Your task to perform on an android device: Search for the new Nike Air Jordan 33 on Nike.com Image 0: 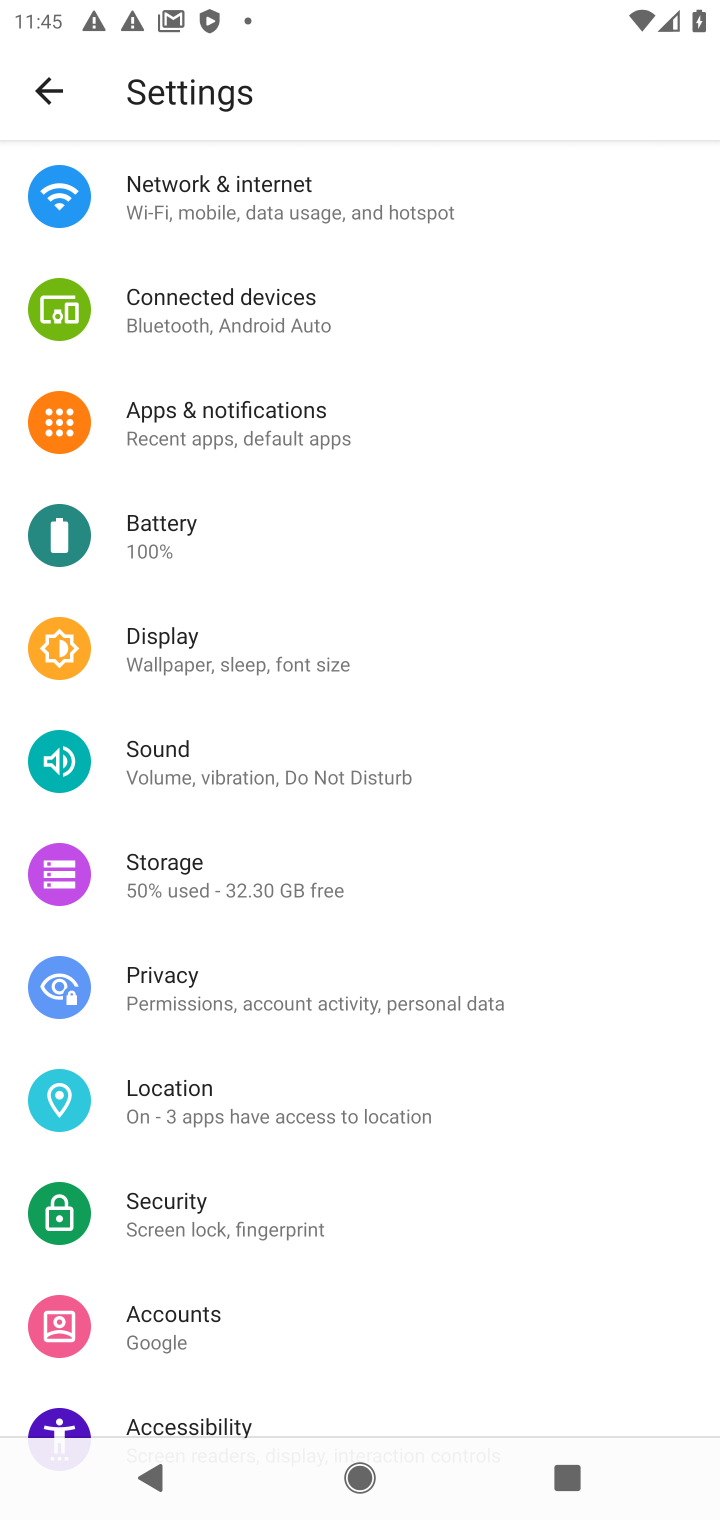
Step 0: press home button
Your task to perform on an android device: Search for the new Nike Air Jordan 33 on Nike.com Image 1: 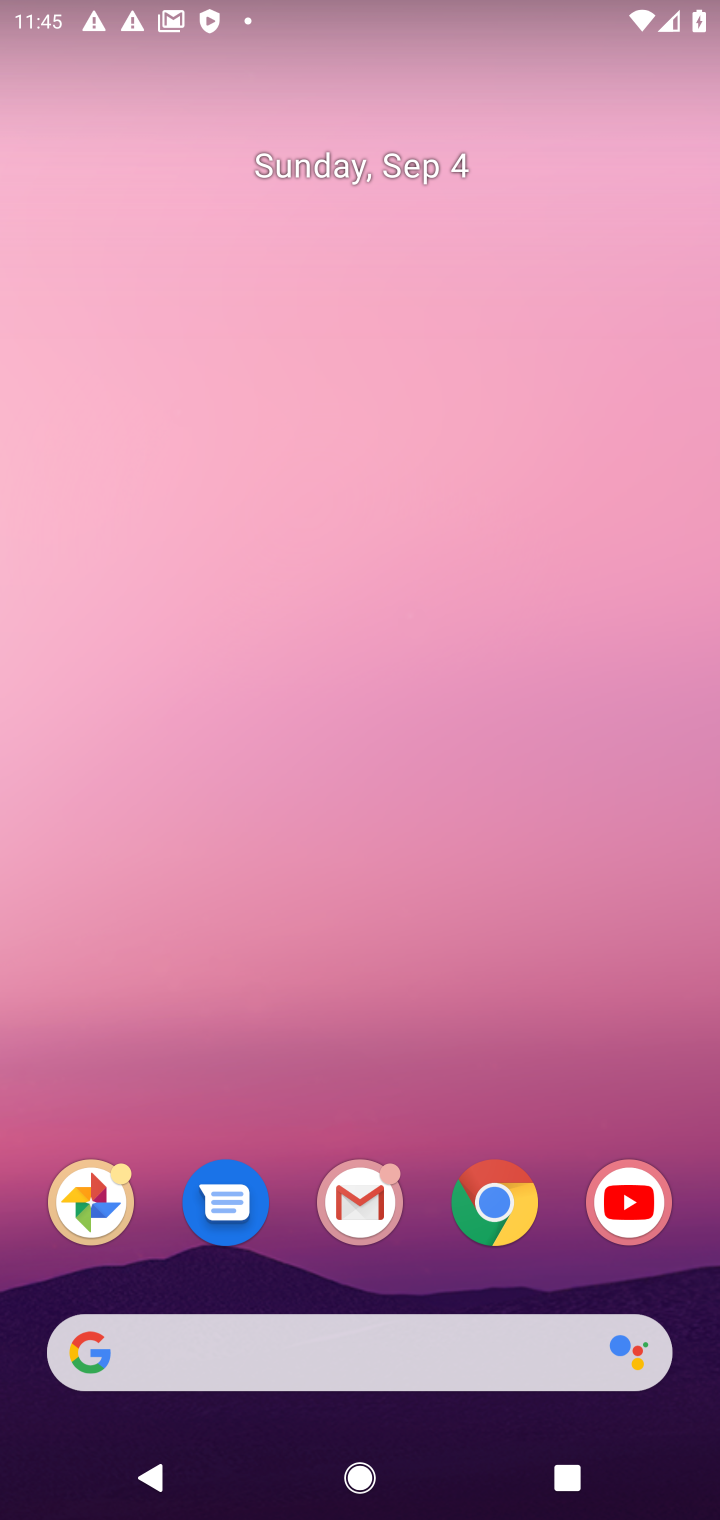
Step 1: click (491, 1208)
Your task to perform on an android device: Search for the new Nike Air Jordan 33 on Nike.com Image 2: 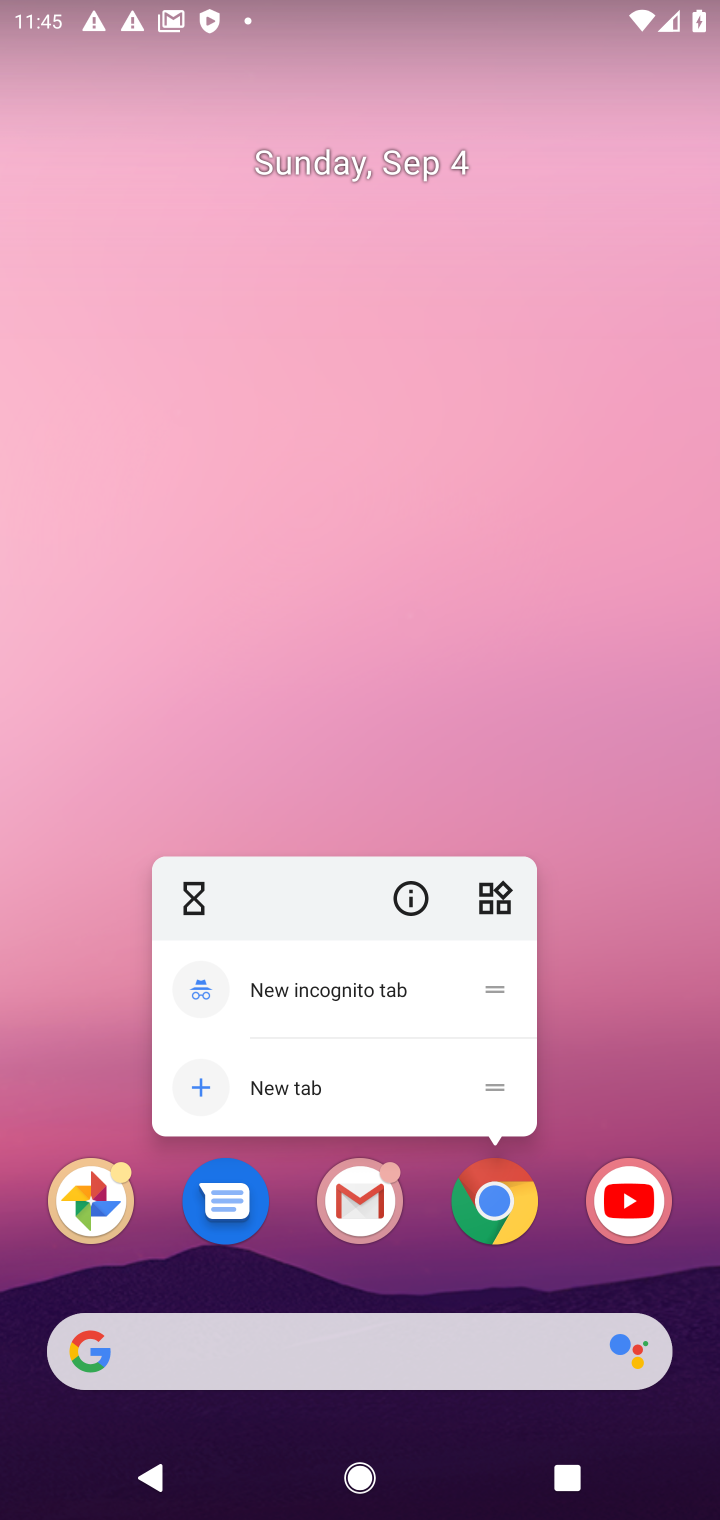
Step 2: click (484, 1195)
Your task to perform on an android device: Search for the new Nike Air Jordan 33 on Nike.com Image 3: 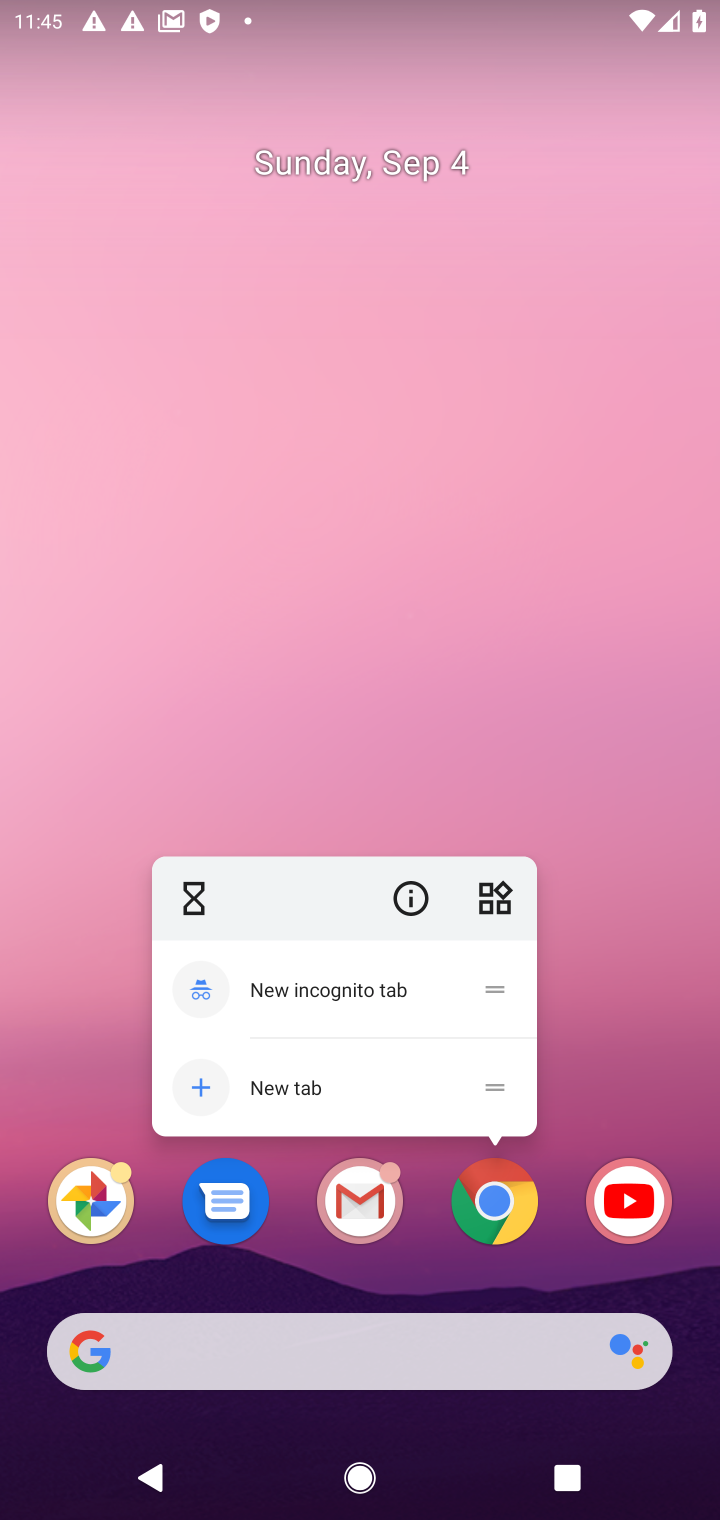
Step 3: click (521, 1233)
Your task to perform on an android device: Search for the new Nike Air Jordan 33 on Nike.com Image 4: 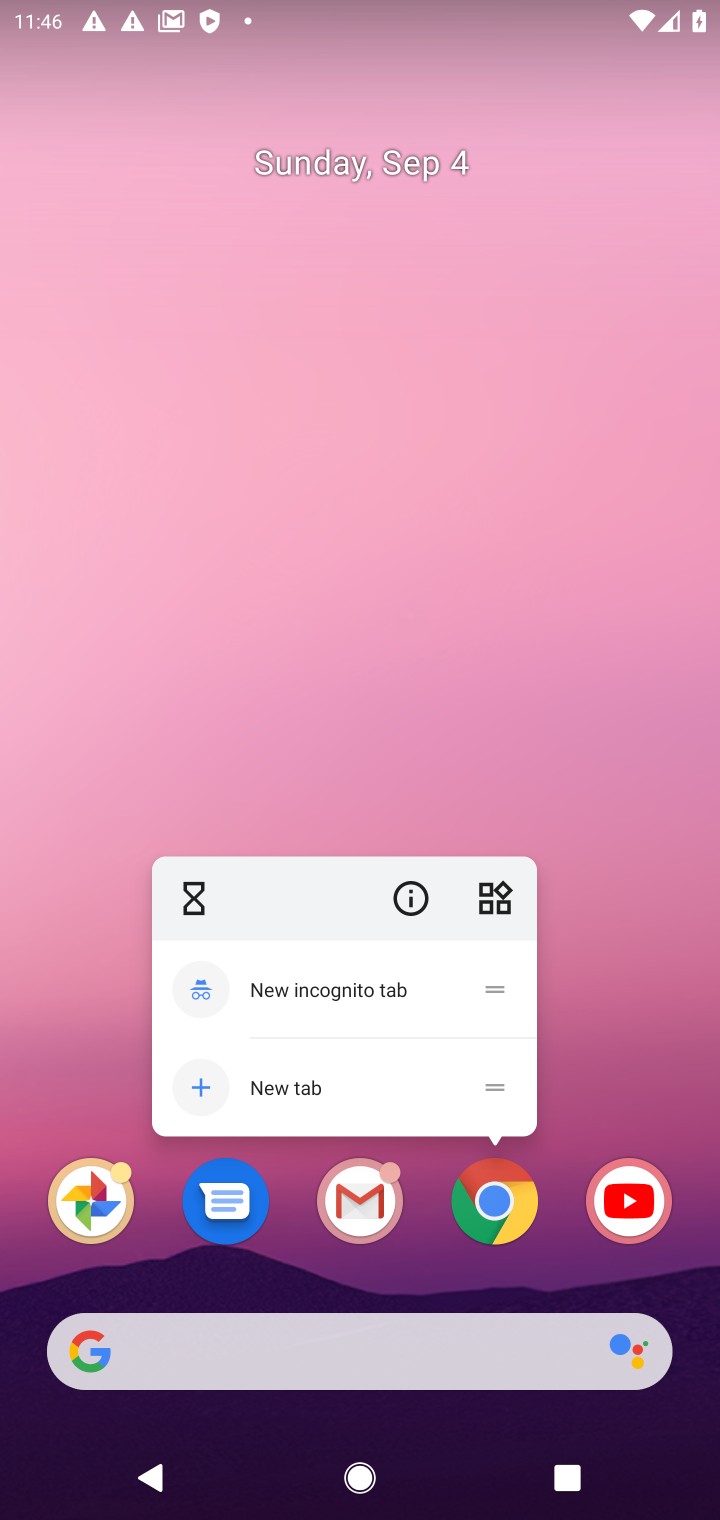
Step 4: click (477, 1199)
Your task to perform on an android device: Search for the new Nike Air Jordan 33 on Nike.com Image 5: 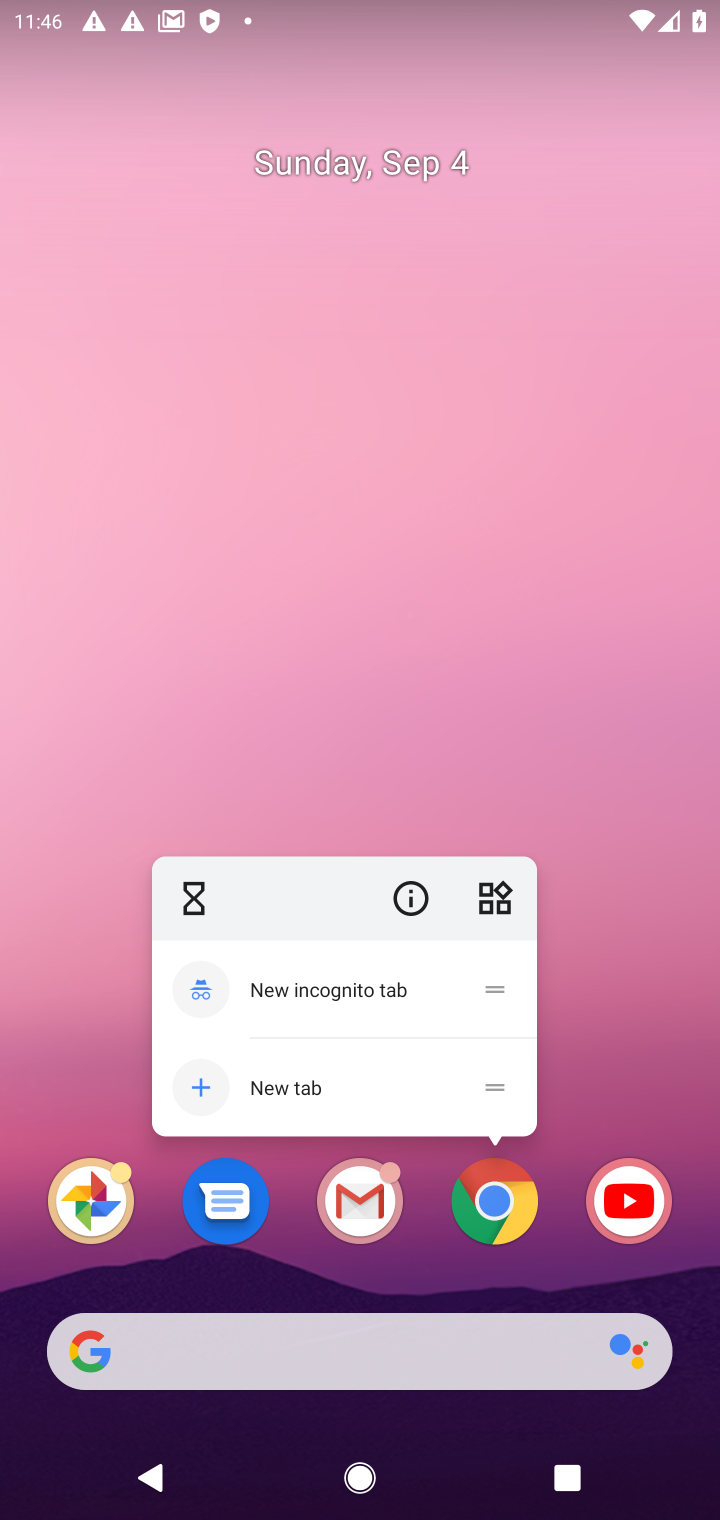
Step 5: click (480, 1211)
Your task to perform on an android device: Search for the new Nike Air Jordan 33 on Nike.com Image 6: 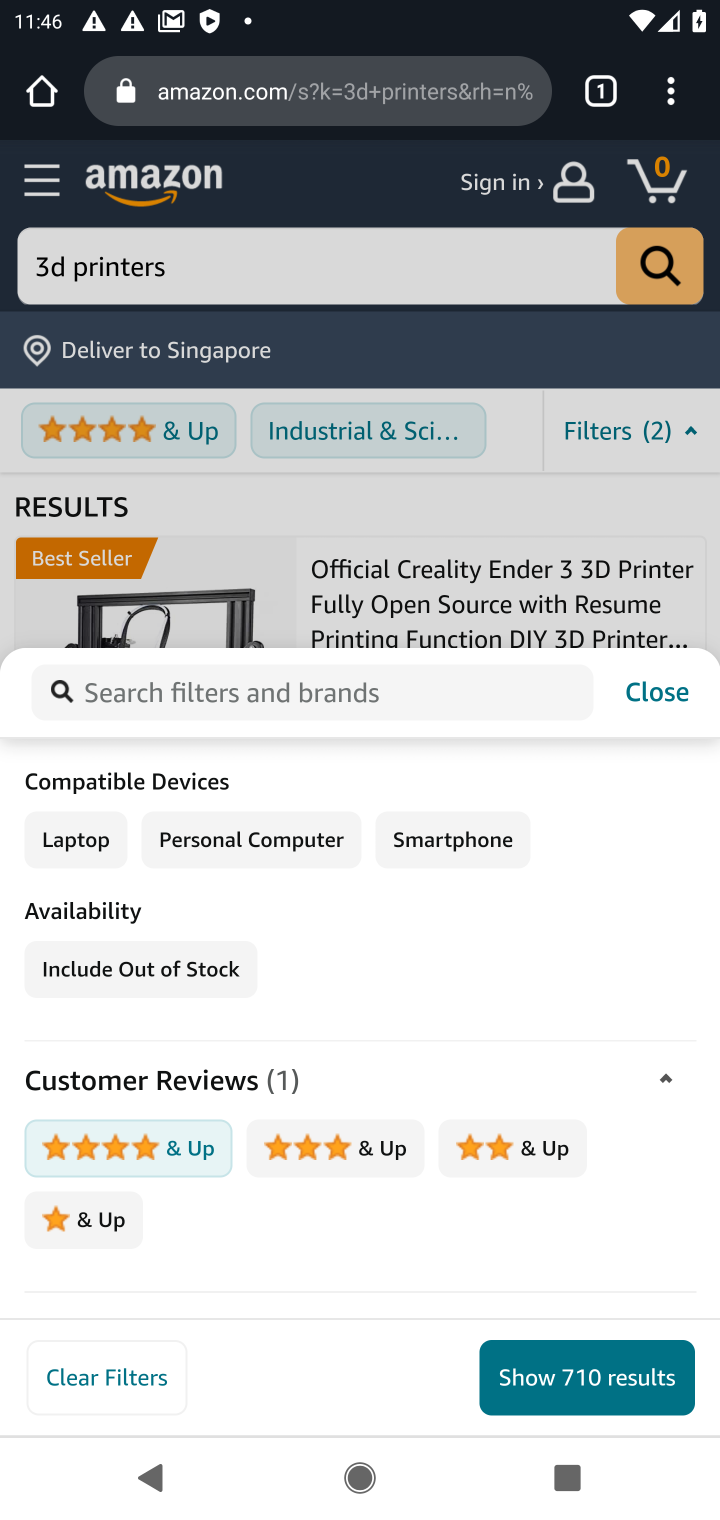
Step 6: press home button
Your task to perform on an android device: Search for the new Nike Air Jordan 33 on Nike.com Image 7: 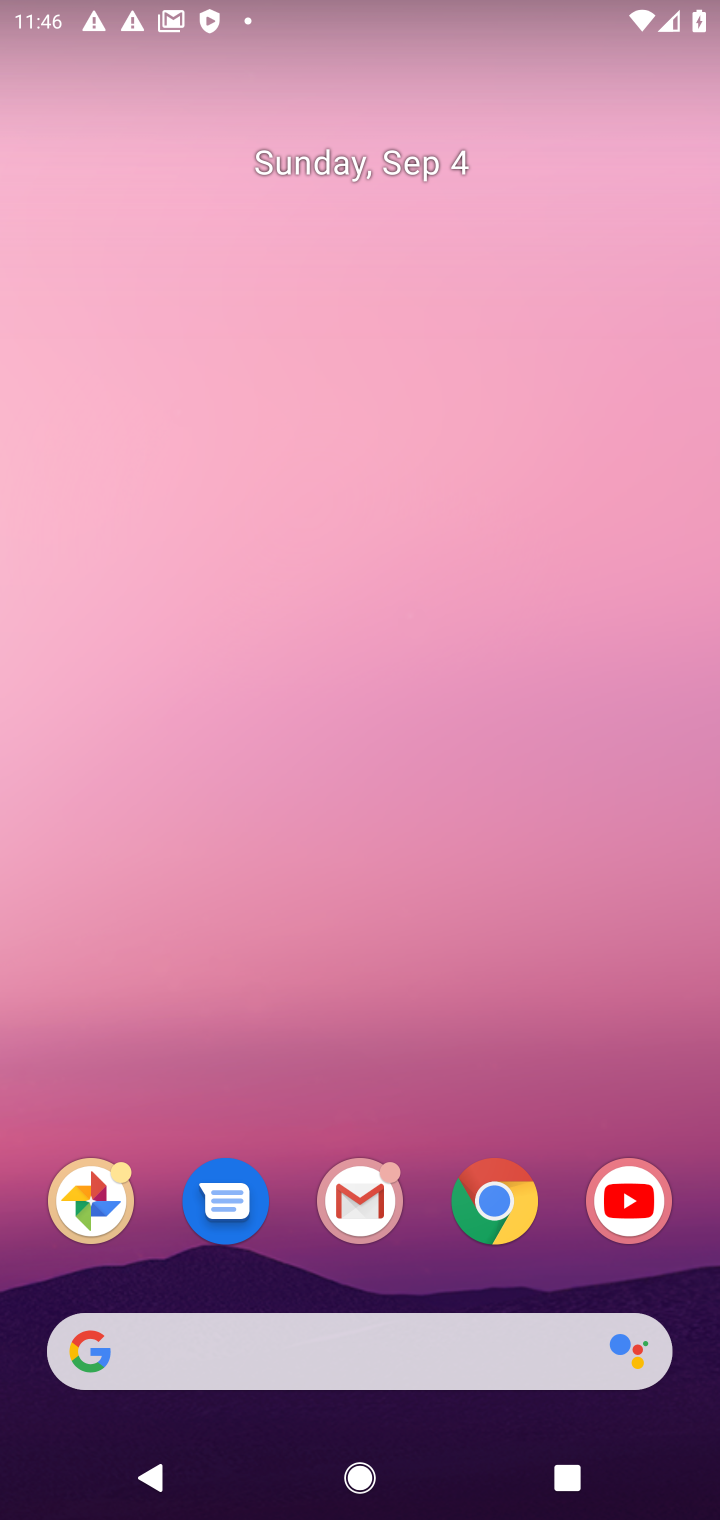
Step 7: click (463, 1207)
Your task to perform on an android device: Search for the new Nike Air Jordan 33 on Nike.com Image 8: 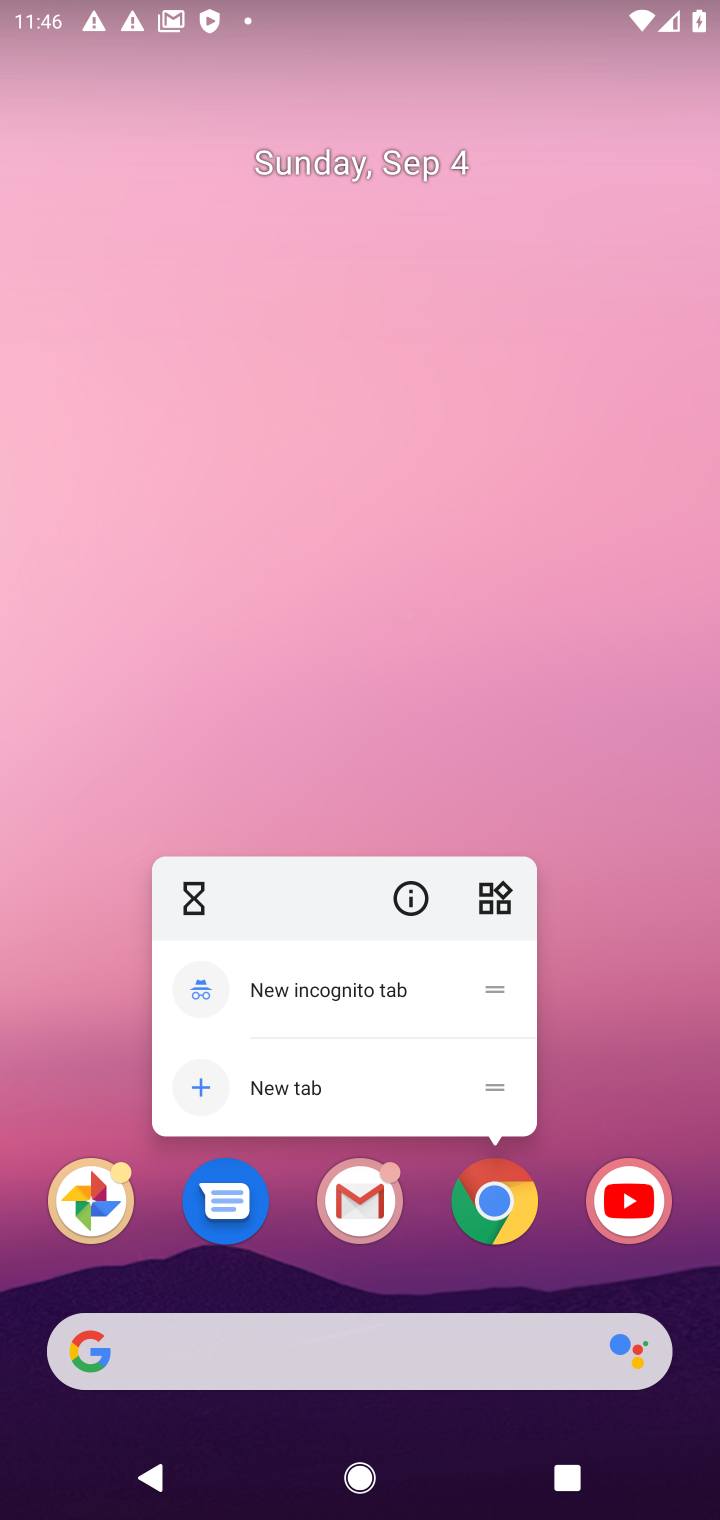
Step 8: click (498, 1203)
Your task to perform on an android device: Search for the new Nike Air Jordan 33 on Nike.com Image 9: 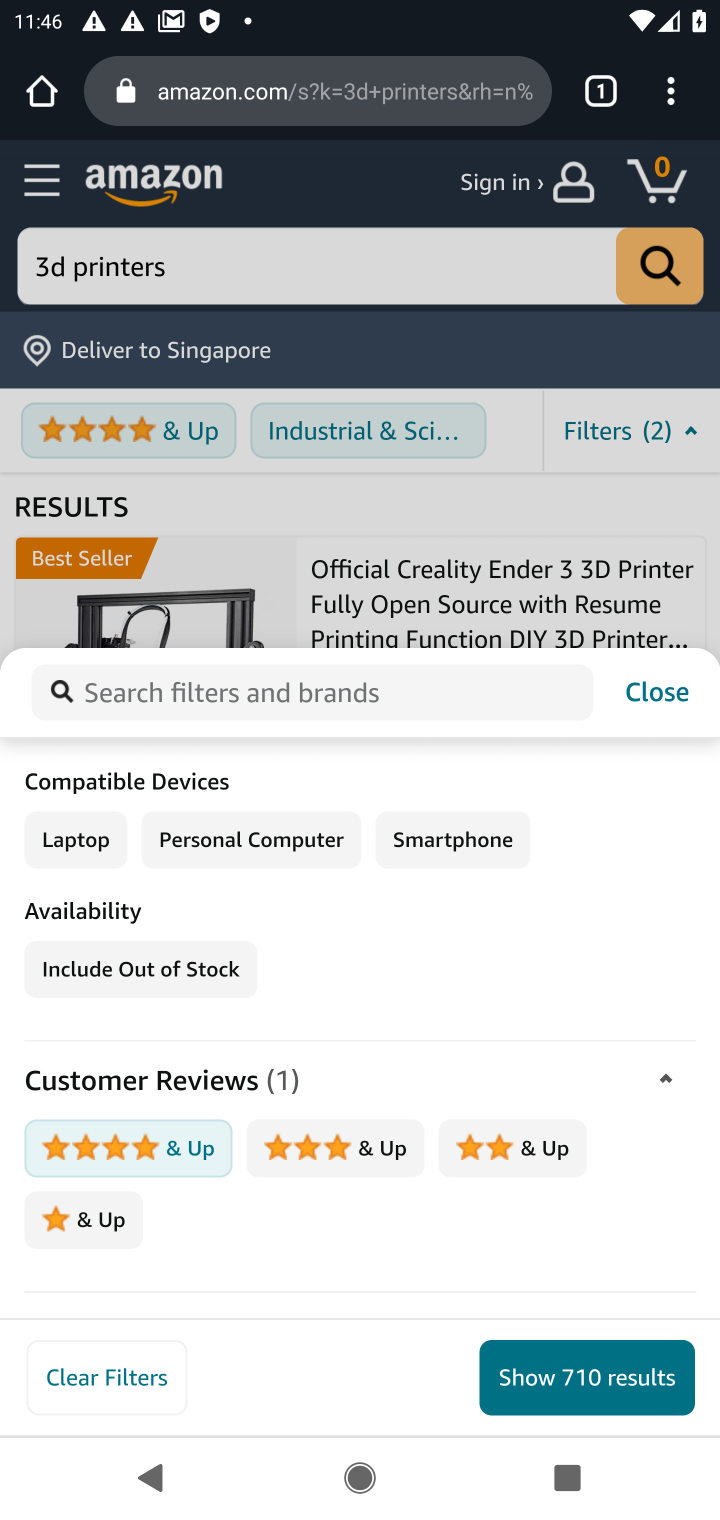
Step 9: click (222, 105)
Your task to perform on an android device: Search for the new Nike Air Jordan 33 on Nike.com Image 10: 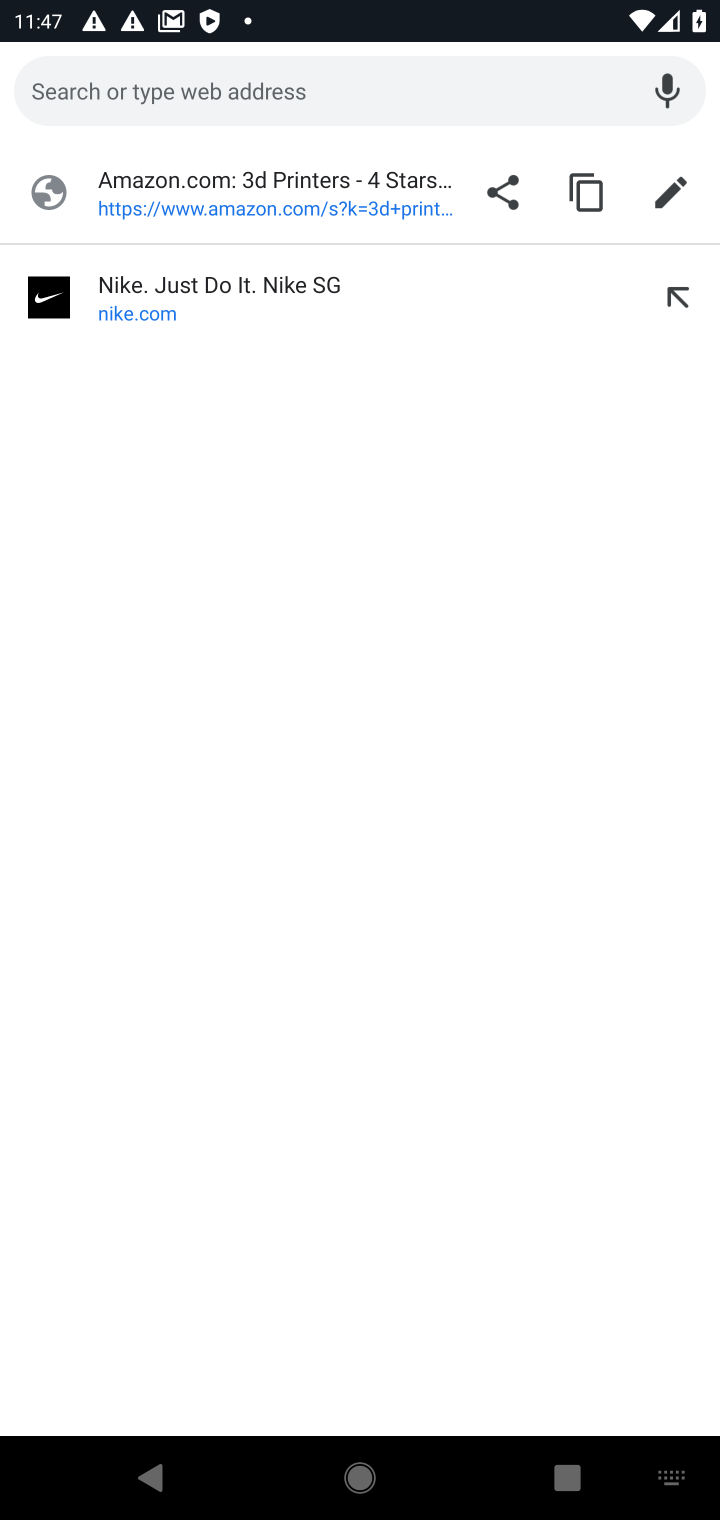
Step 10: type "nike.com"
Your task to perform on an android device: Search for the new Nike Air Jordan 33 on Nike.com Image 11: 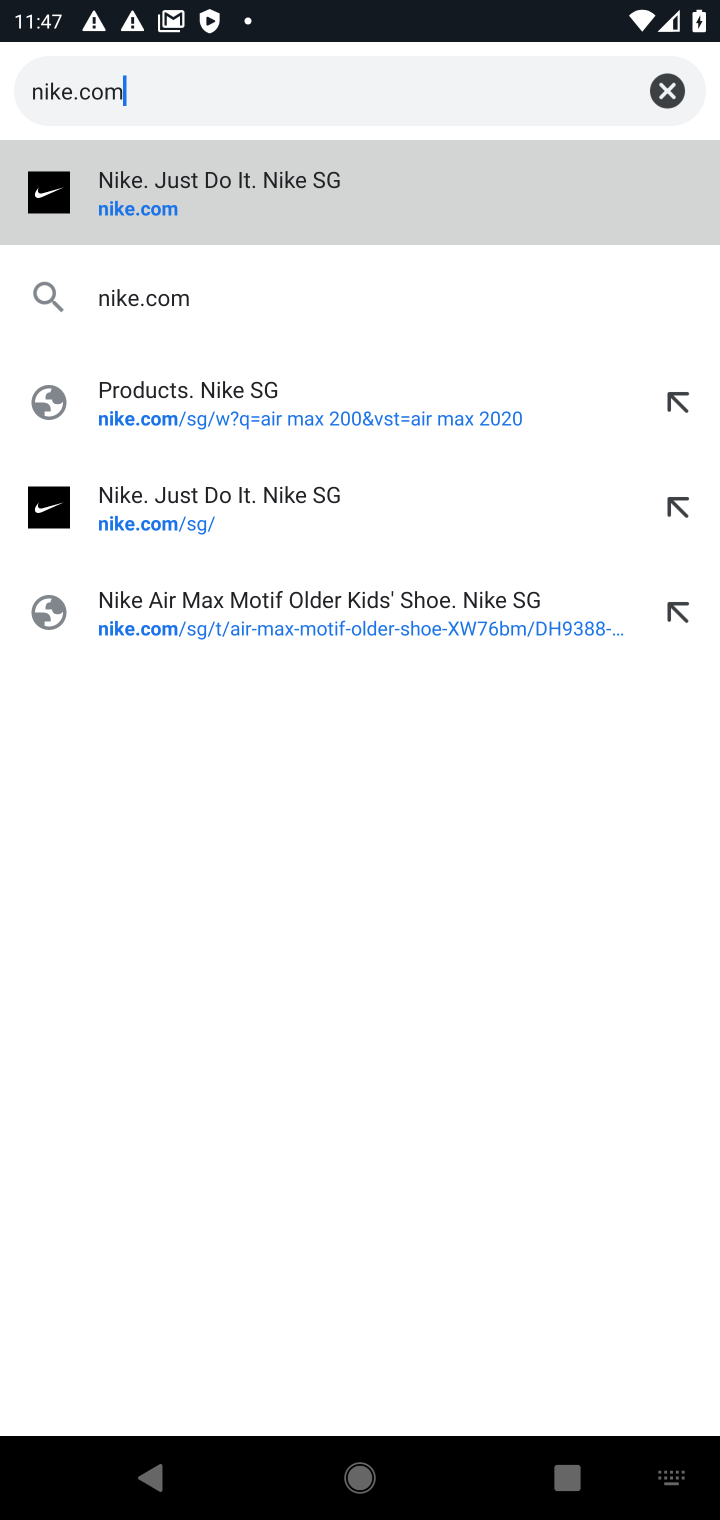
Step 11: click (152, 225)
Your task to perform on an android device: Search for the new Nike Air Jordan 33 on Nike.com Image 12: 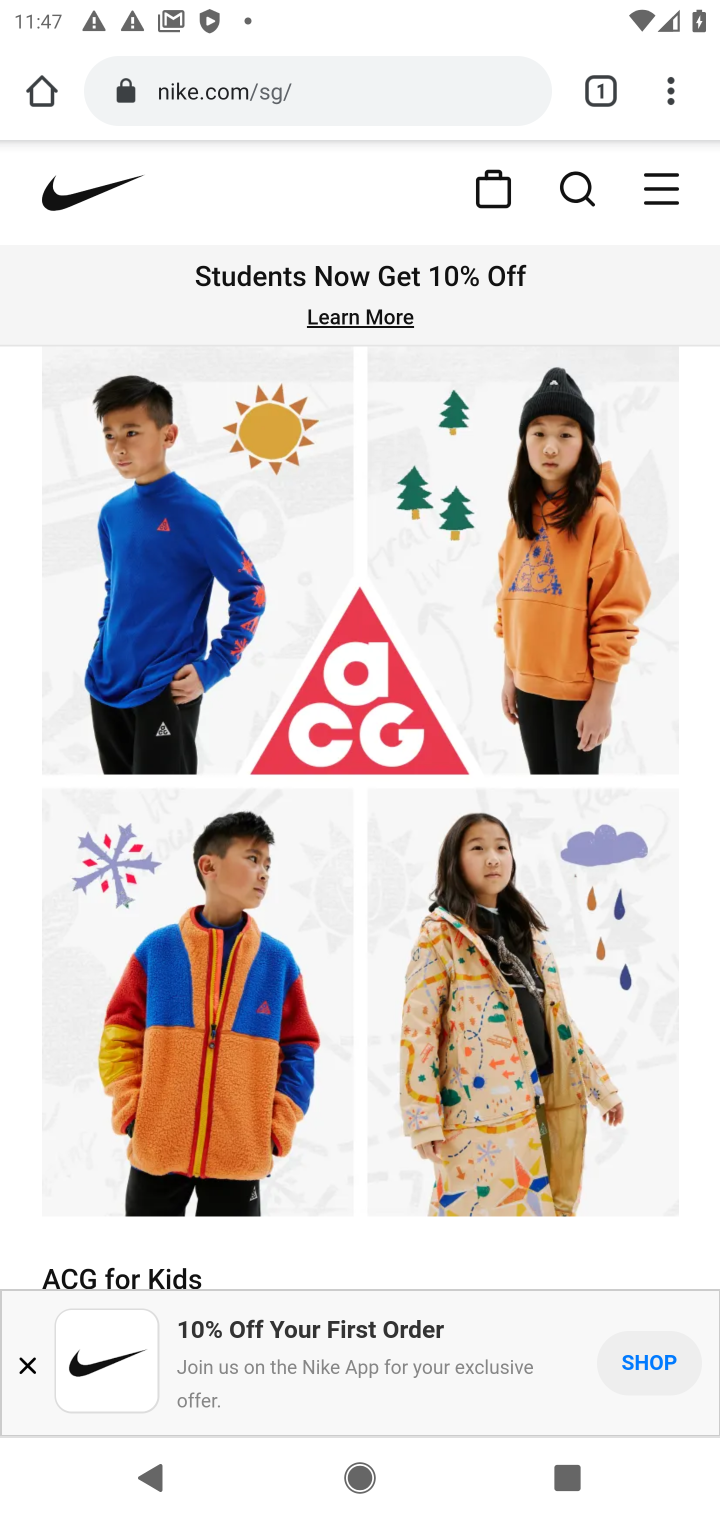
Step 12: click (562, 187)
Your task to perform on an android device: Search for the new Nike Air Jordan 33 on Nike.com Image 13: 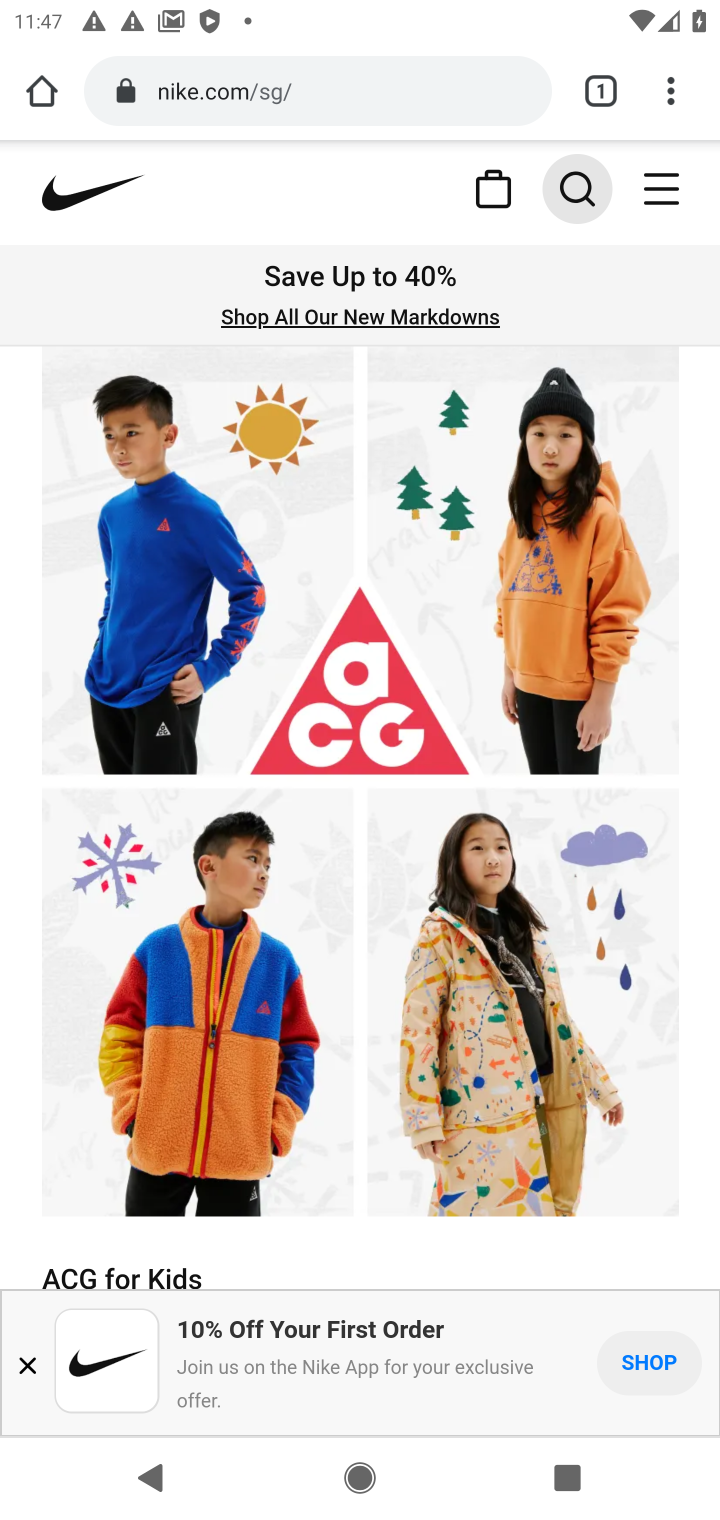
Step 13: click (568, 198)
Your task to perform on an android device: Search for the new Nike Air Jordan 33 on Nike.com Image 14: 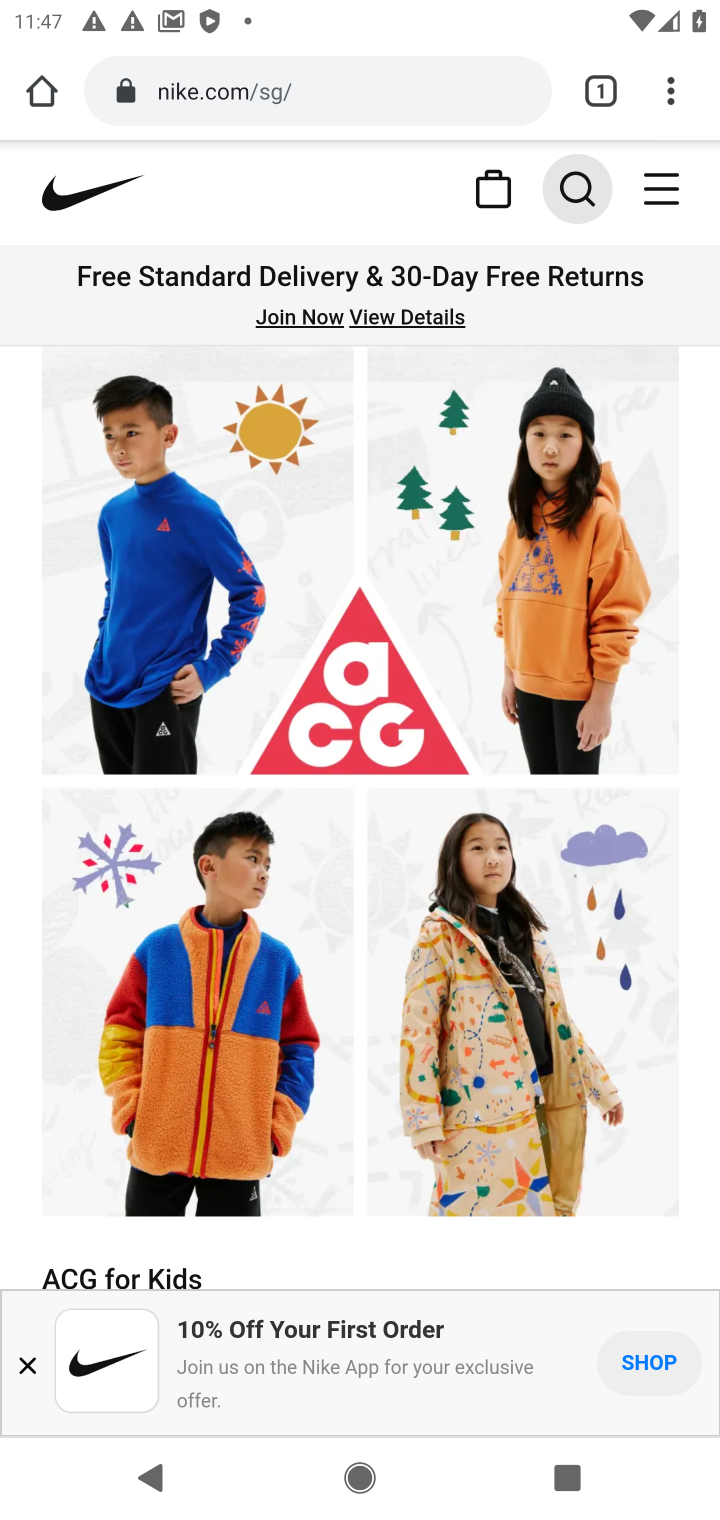
Step 14: click (25, 1367)
Your task to perform on an android device: Search for the new Nike Air Jordan 33 on Nike.com Image 15: 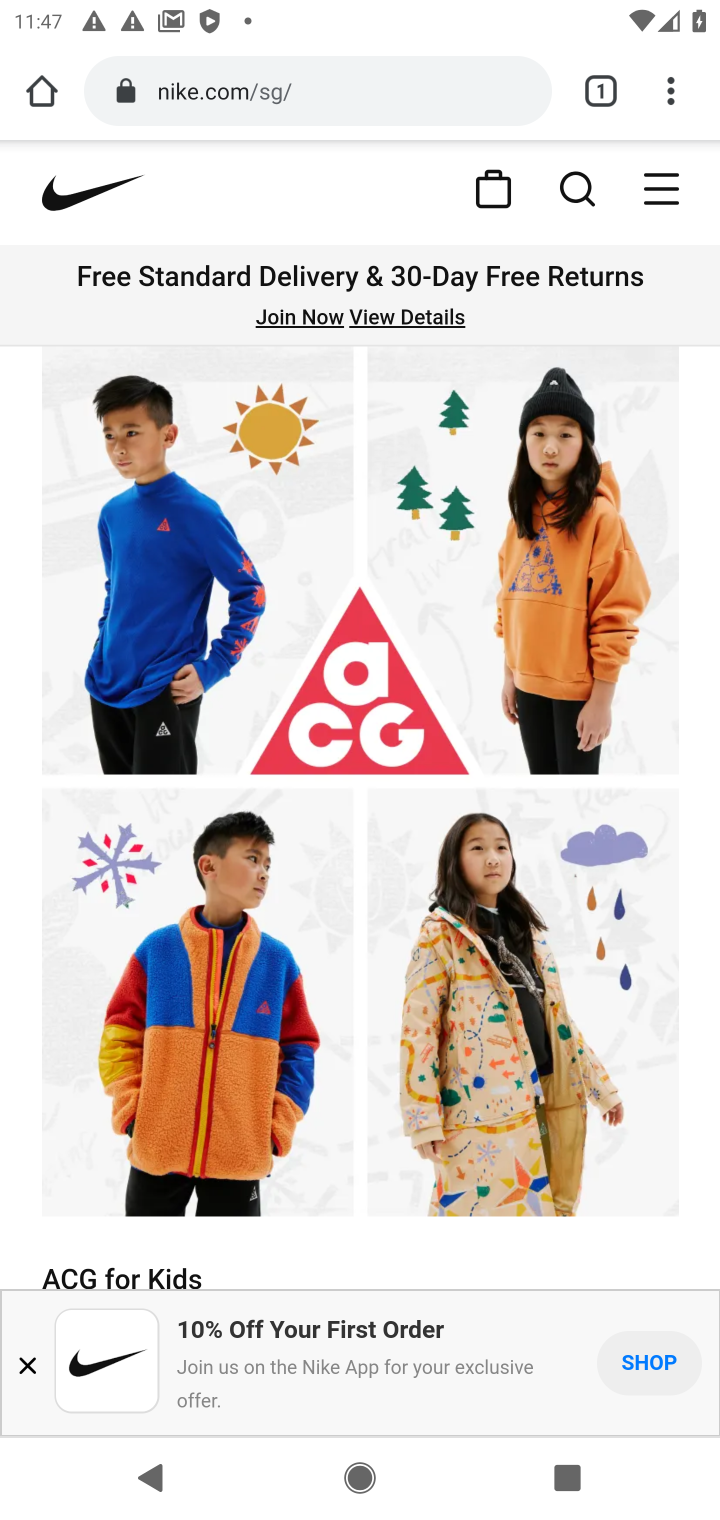
Step 15: click (25, 1373)
Your task to perform on an android device: Search for the new Nike Air Jordan 33 on Nike.com Image 16: 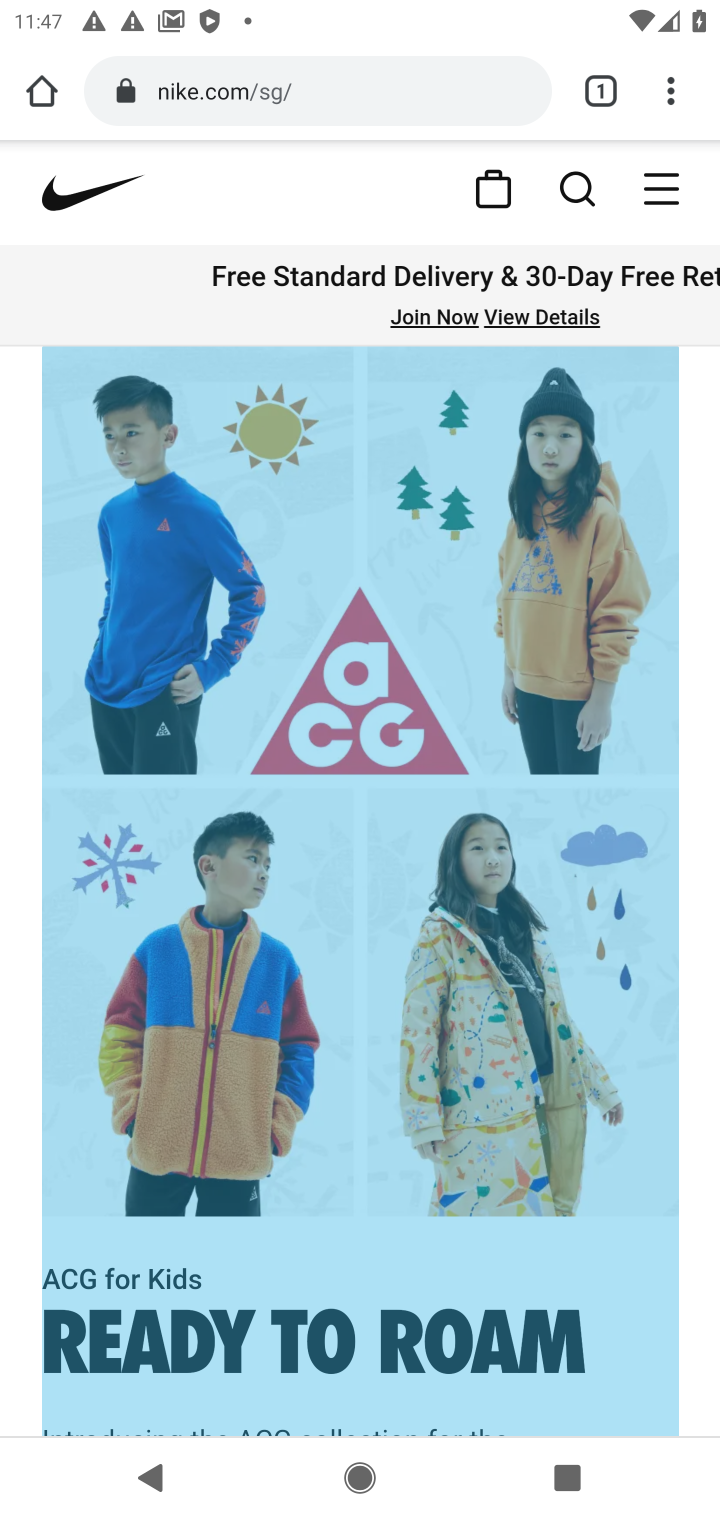
Step 16: click (561, 185)
Your task to perform on an android device: Search for the new Nike Air Jordan 33 on Nike.com Image 17: 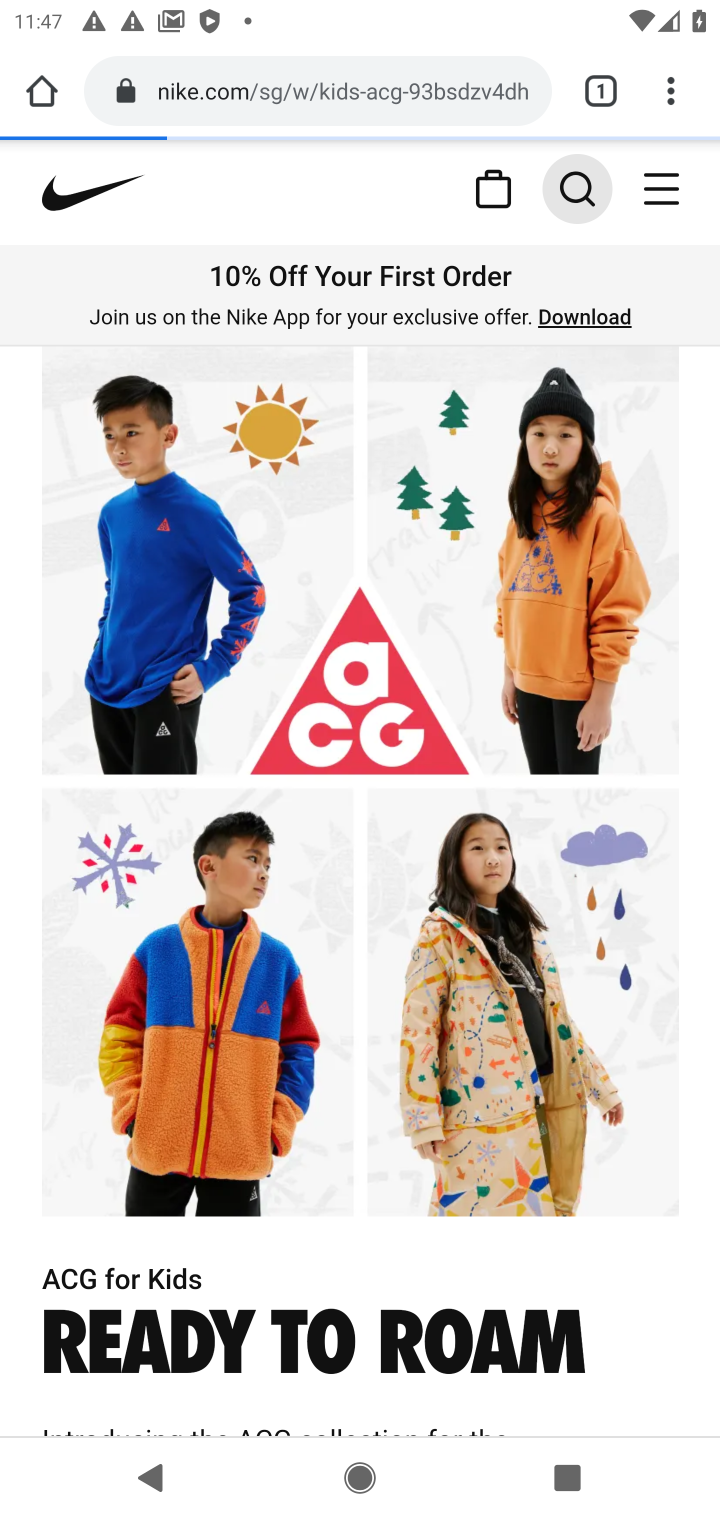
Step 17: click (577, 181)
Your task to perform on an android device: Search for the new Nike Air Jordan 33 on Nike.com Image 18: 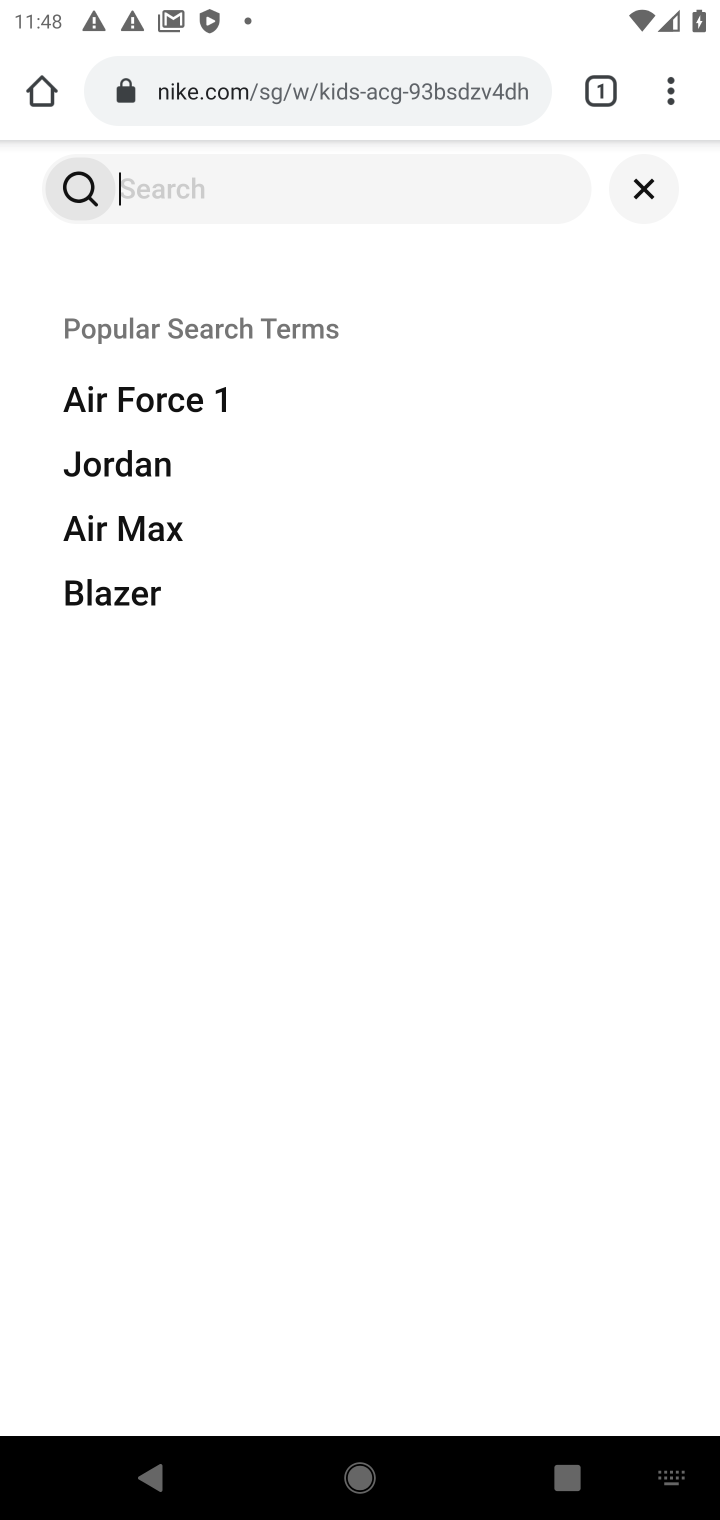
Step 18: type "nike air jordan 33"
Your task to perform on an android device: Search for the new Nike Air Jordan 33 on Nike.com Image 19: 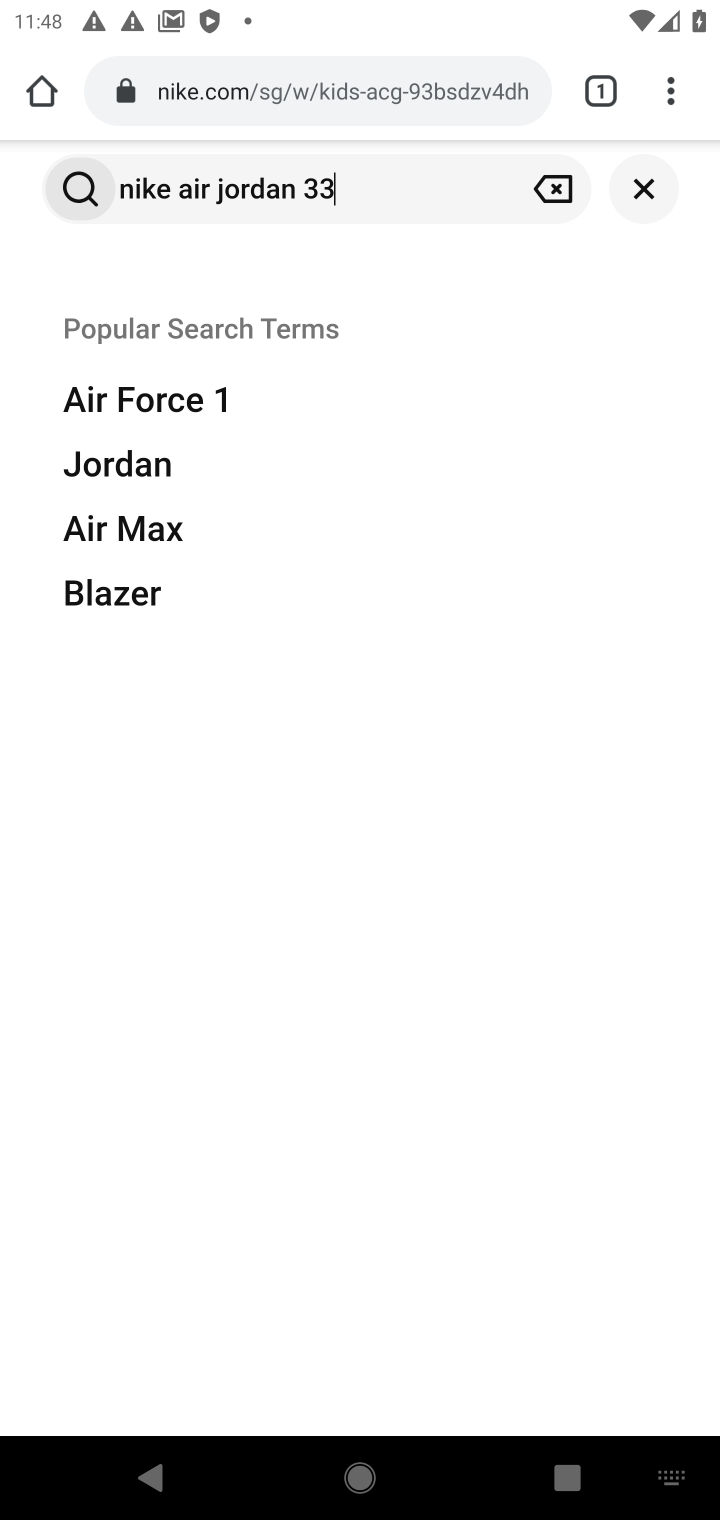
Step 19: type ""
Your task to perform on an android device: Search for the new Nike Air Jordan 33 on Nike.com Image 20: 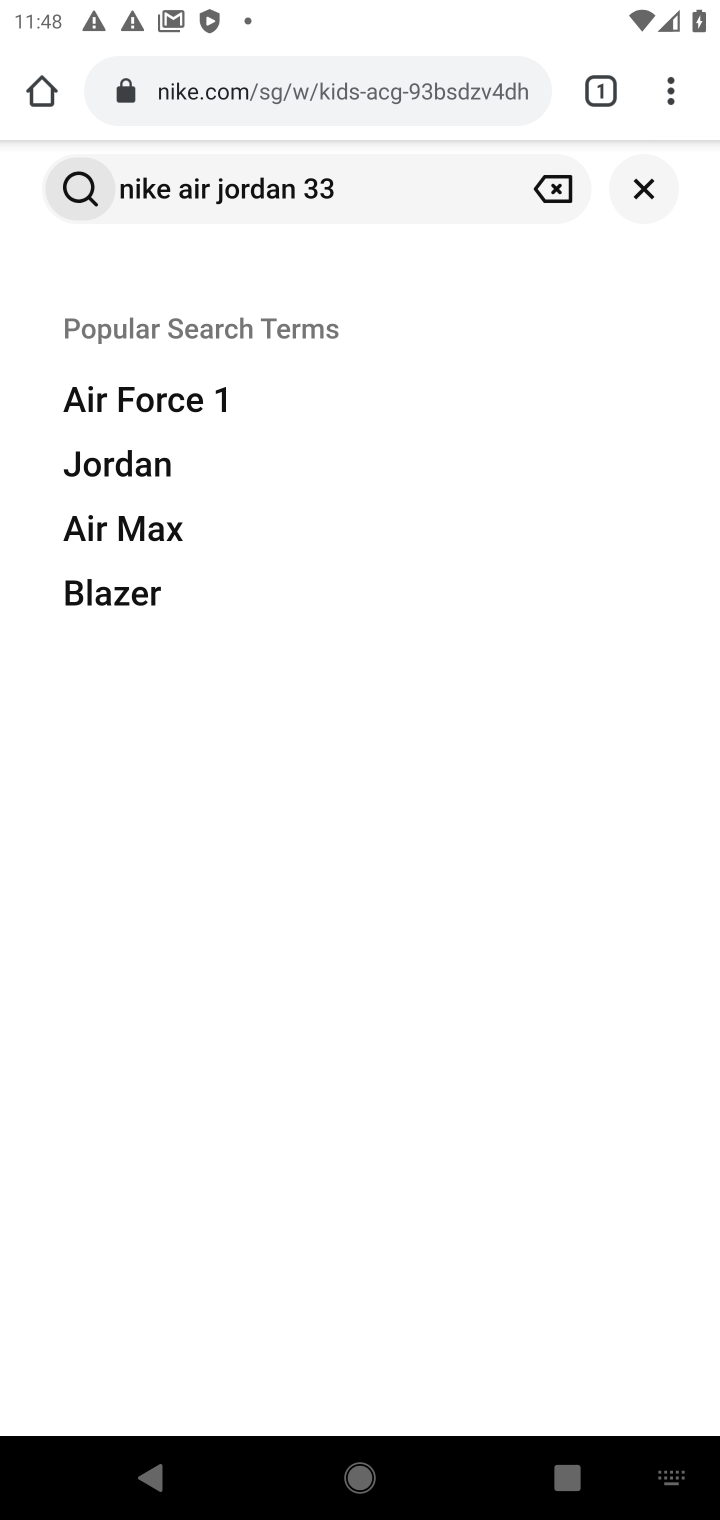
Step 20: type ""
Your task to perform on an android device: Search for the new Nike Air Jordan 33 on Nike.com Image 21: 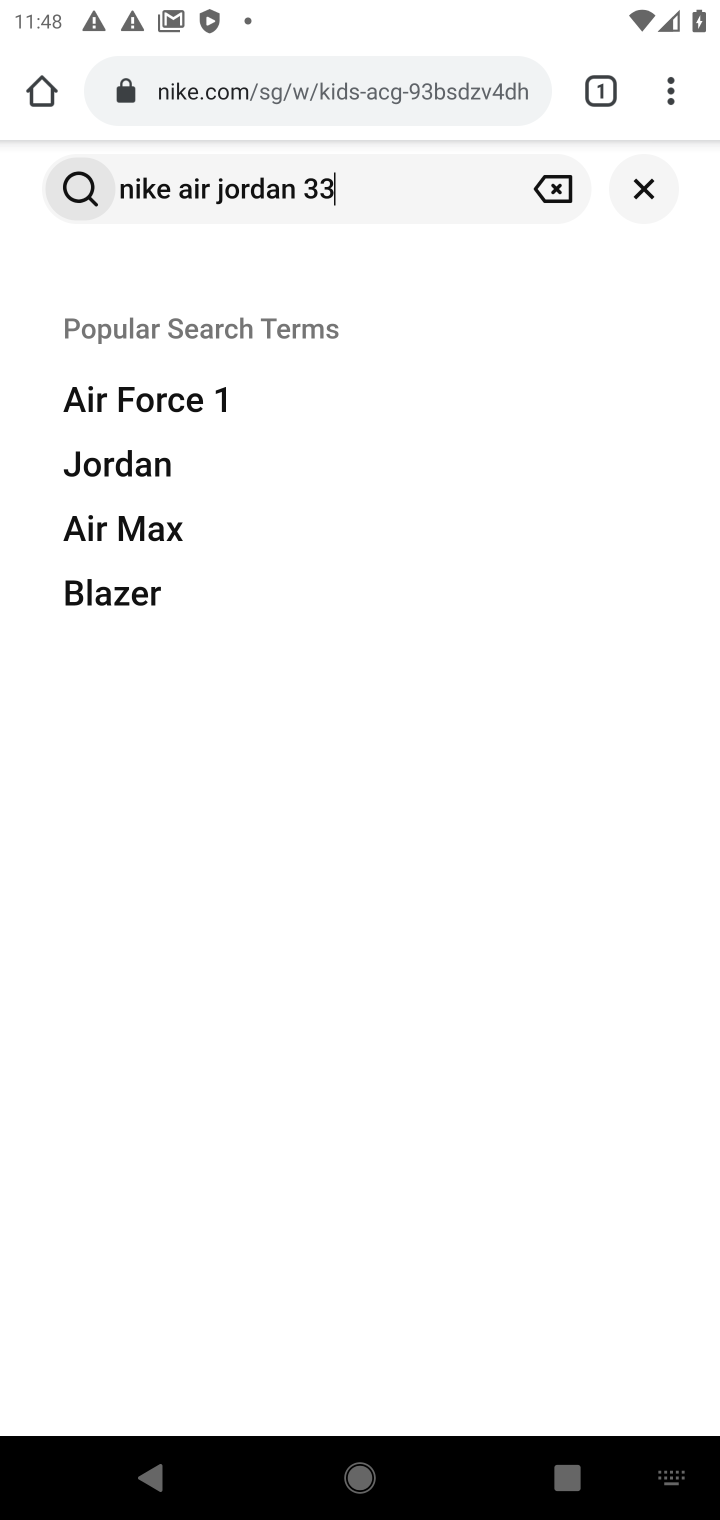
Step 21: click (110, 449)
Your task to perform on an android device: Search for the new Nike Air Jordan 33 on Nike.com Image 22: 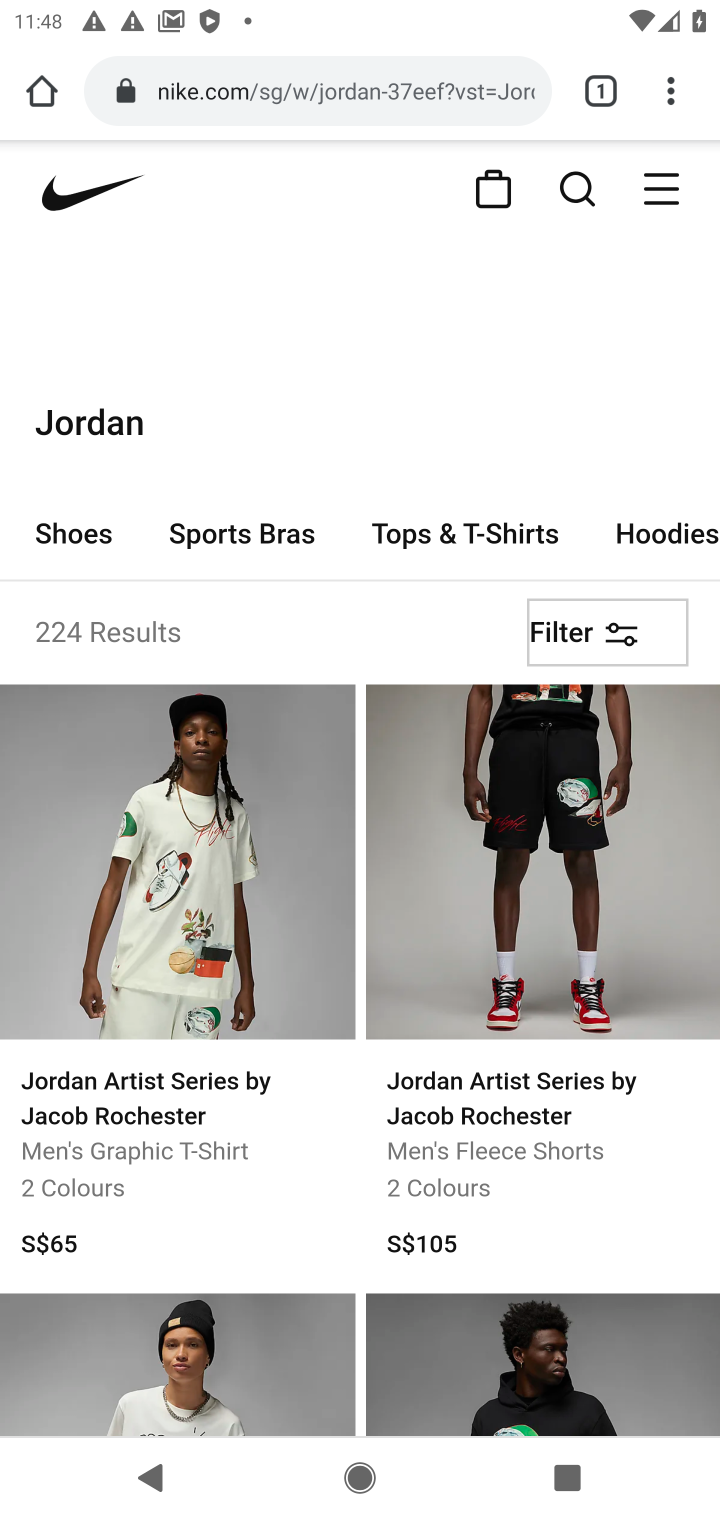
Step 22: drag from (297, 1122) to (368, 732)
Your task to perform on an android device: Search for the new Nike Air Jordan 33 on Nike.com Image 23: 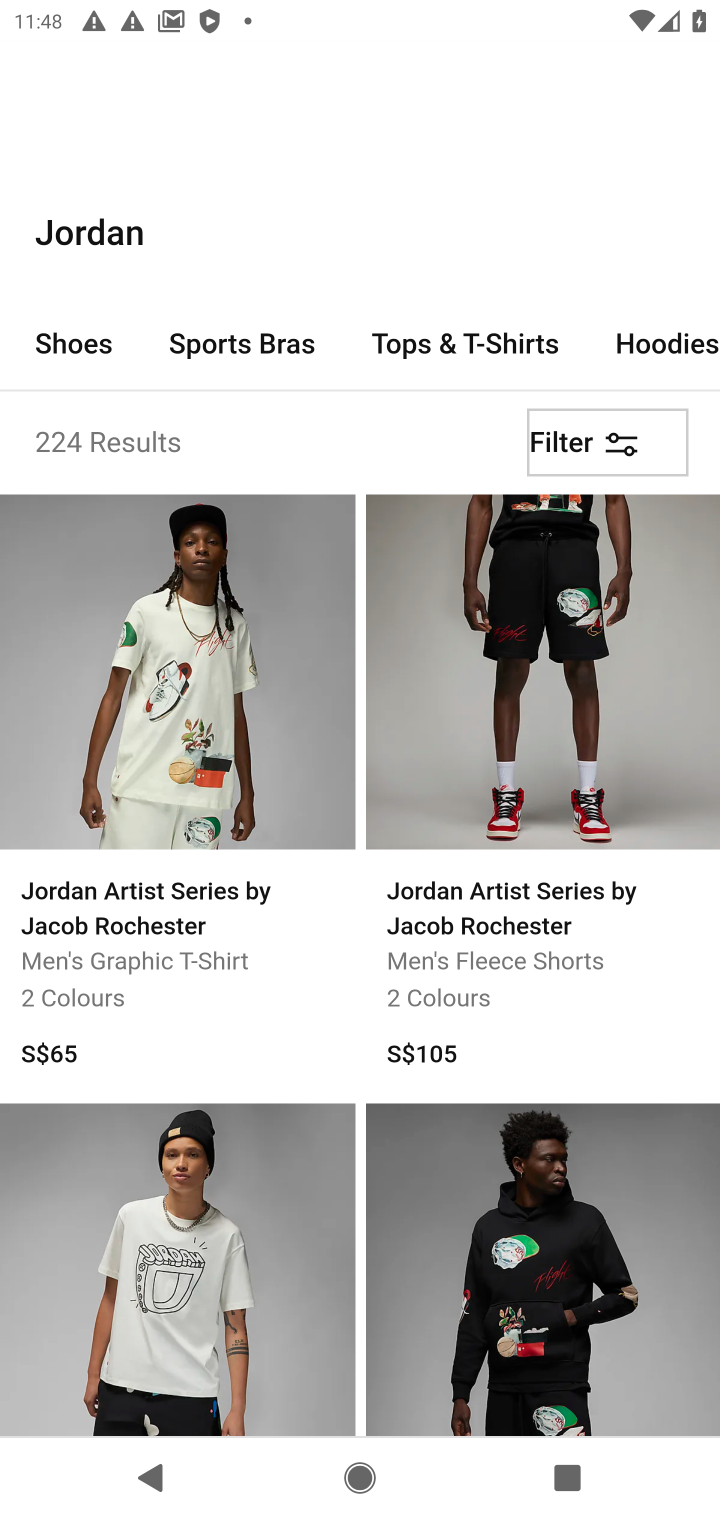
Step 23: click (587, 1252)
Your task to perform on an android device: Search for the new Nike Air Jordan 33 on Nike.com Image 24: 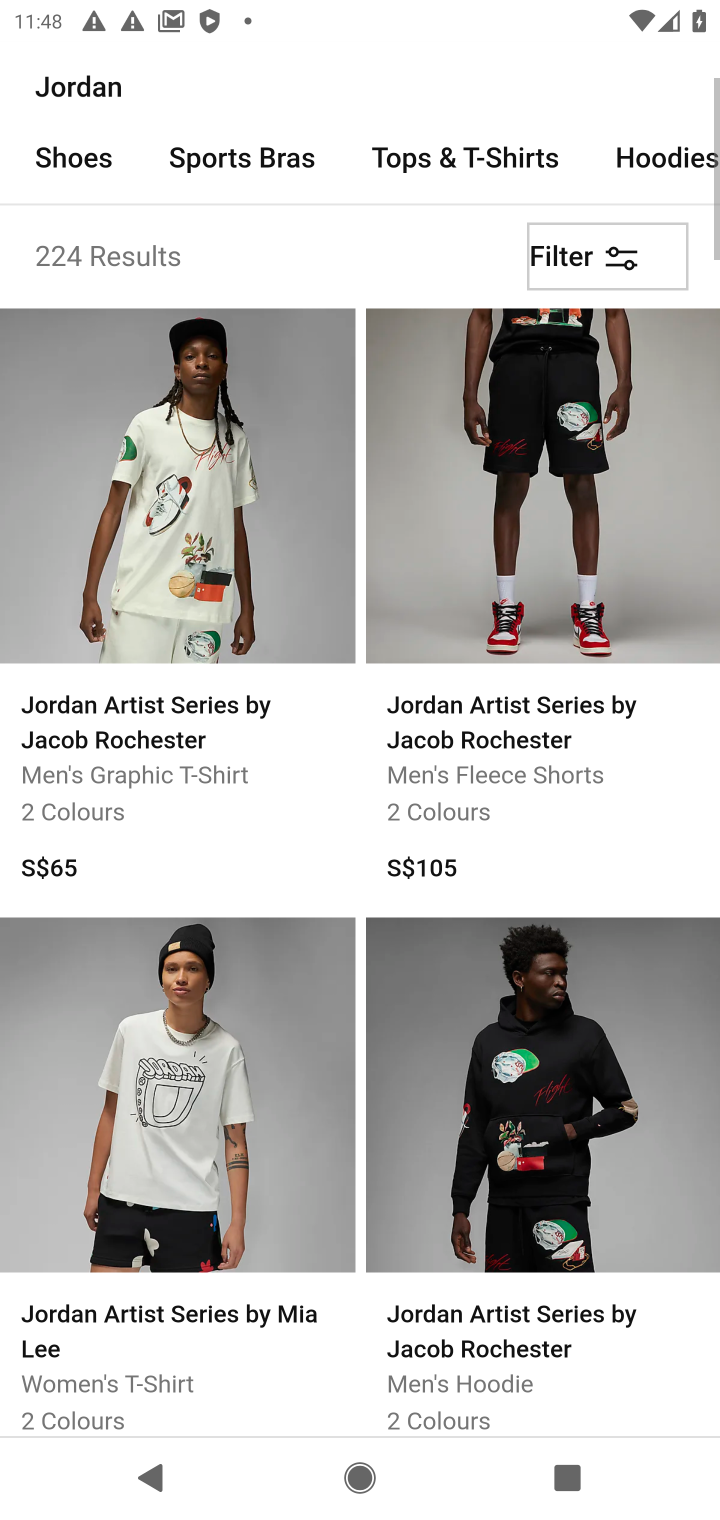
Step 24: click (571, 244)
Your task to perform on an android device: Search for the new Nike Air Jordan 33 on Nike.com Image 25: 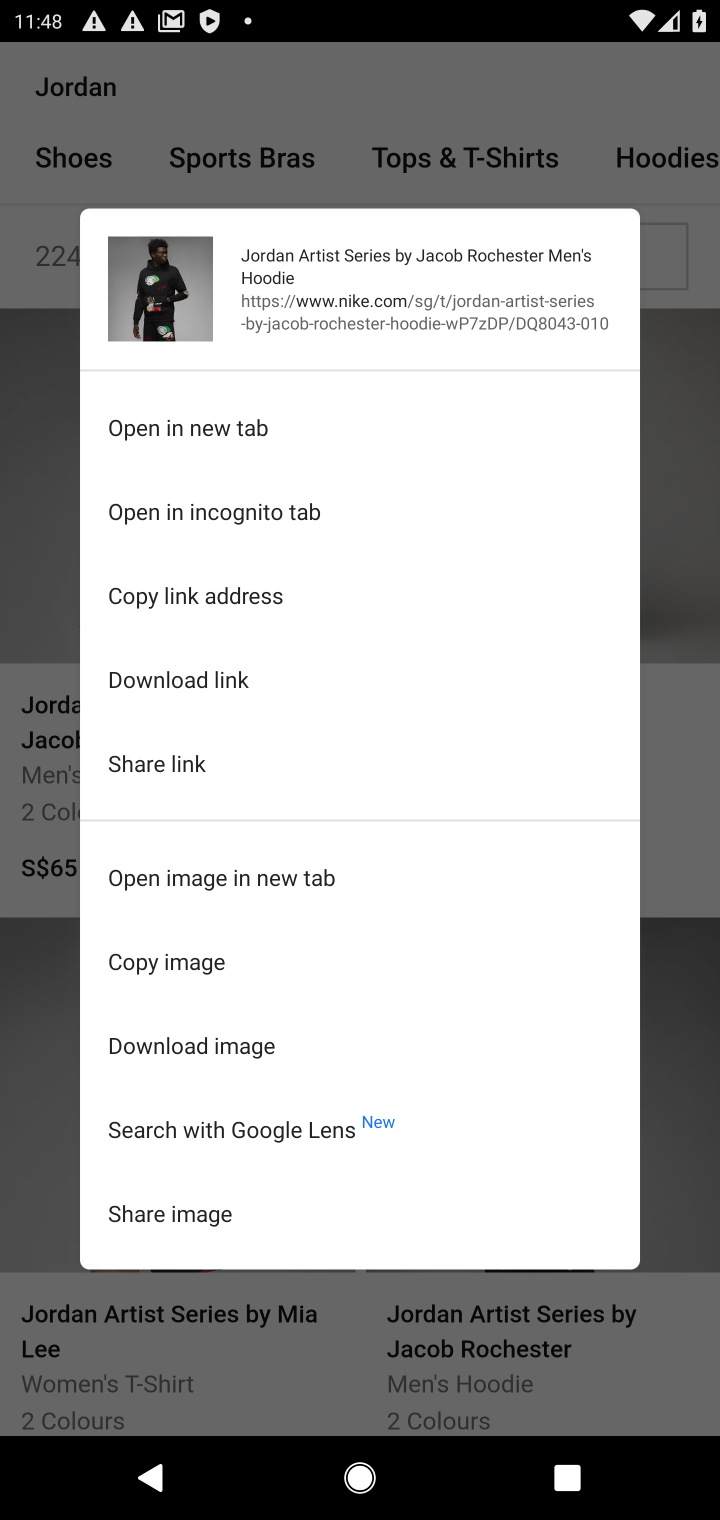
Step 25: drag from (445, 866) to (246, 627)
Your task to perform on an android device: Search for the new Nike Air Jordan 33 on Nike.com Image 26: 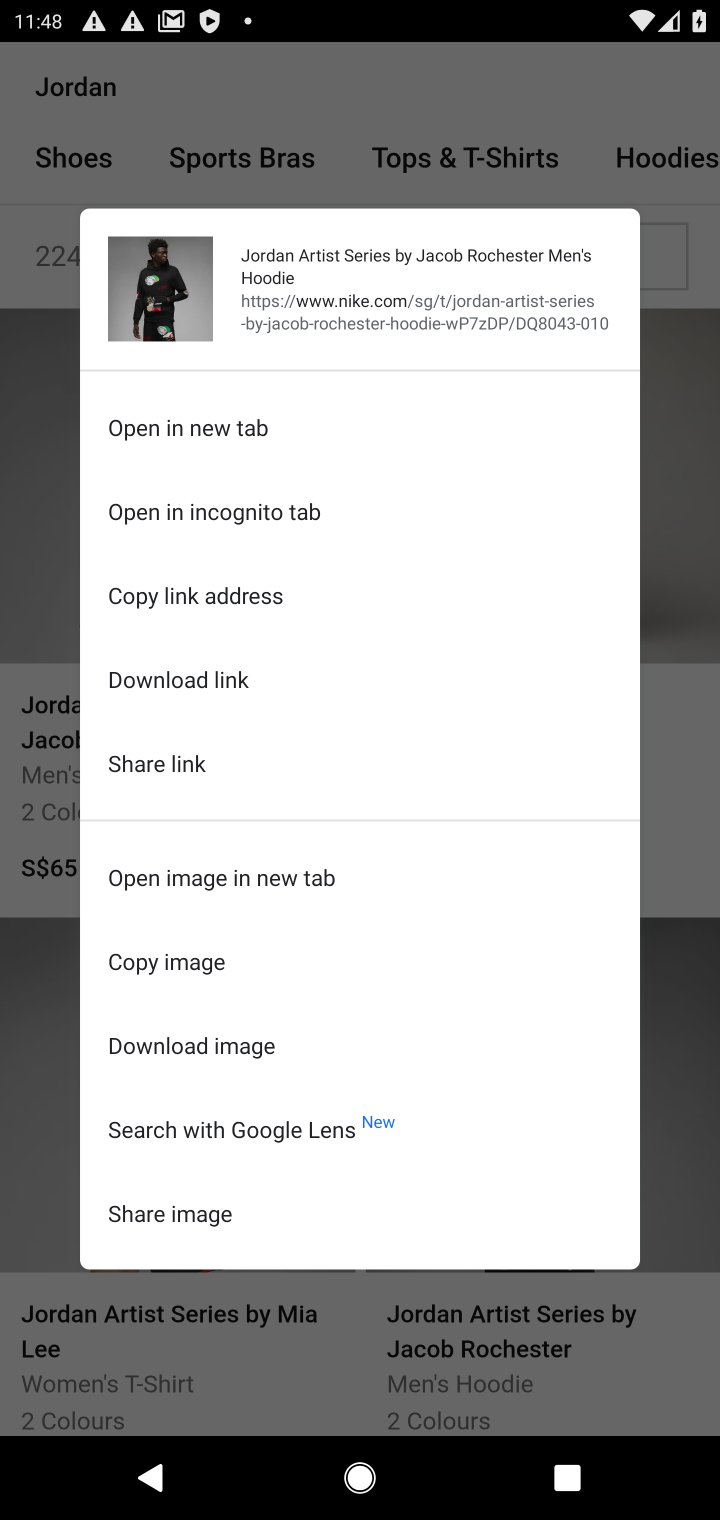
Step 26: drag from (693, 900) to (714, 309)
Your task to perform on an android device: Search for the new Nike Air Jordan 33 on Nike.com Image 27: 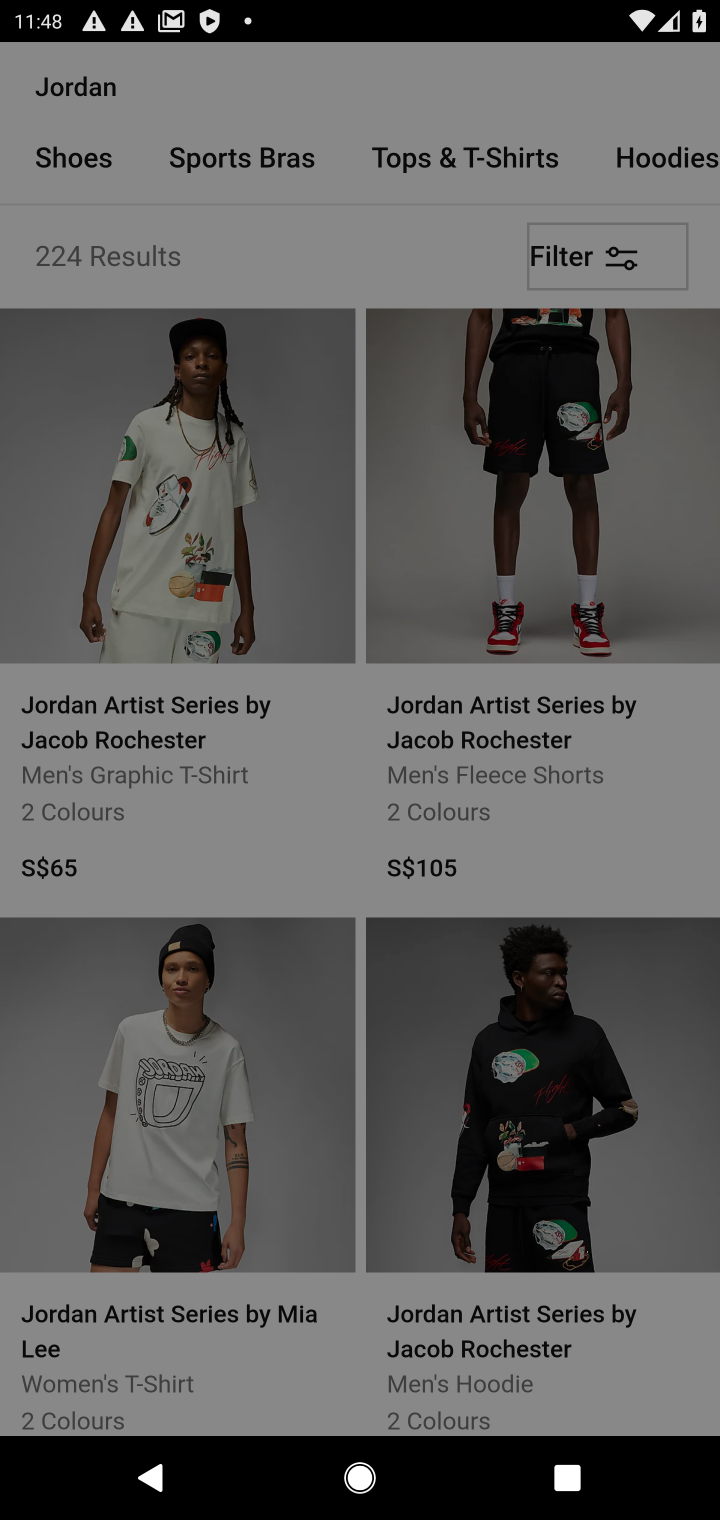
Step 27: drag from (651, 846) to (682, 319)
Your task to perform on an android device: Search for the new Nike Air Jordan 33 on Nike.com Image 28: 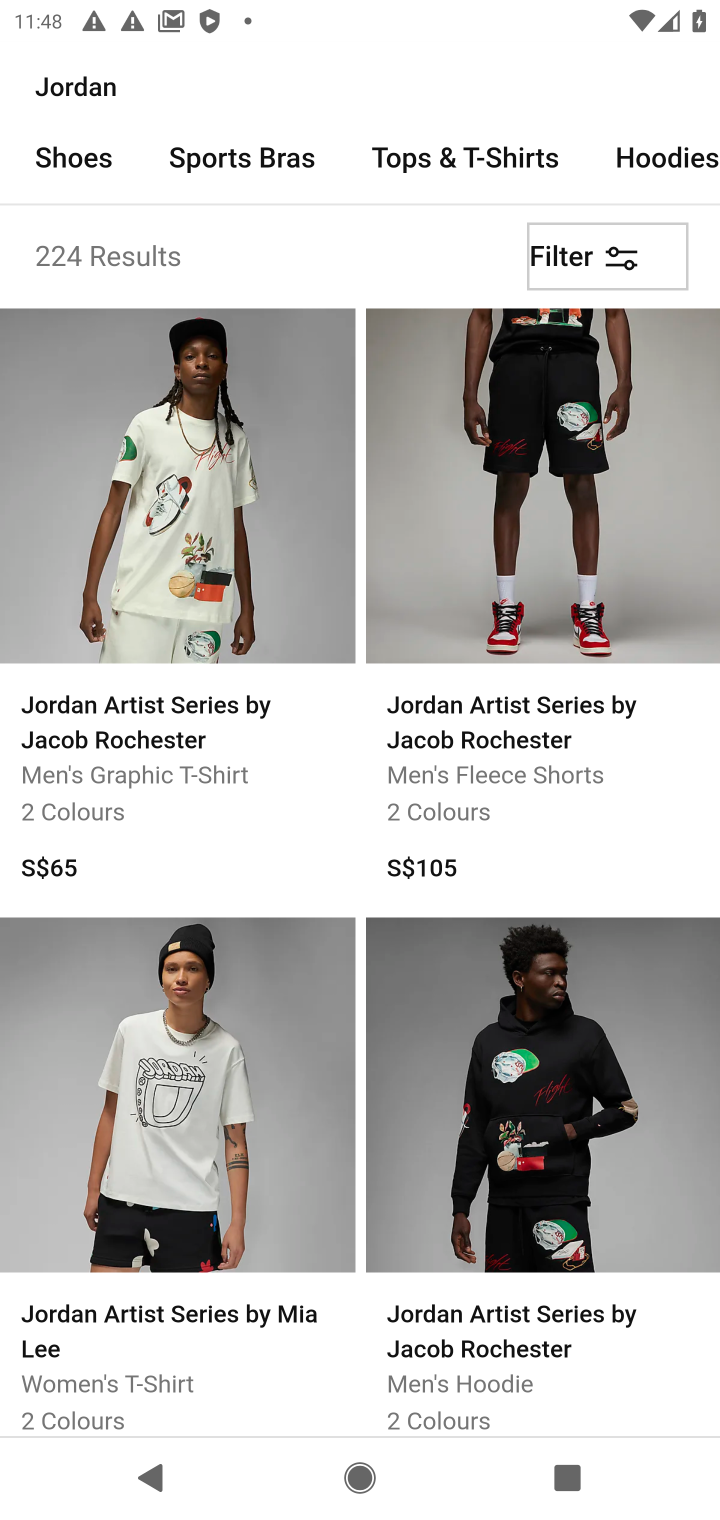
Step 28: click (485, 469)
Your task to perform on an android device: Search for the new Nike Air Jordan 33 on Nike.com Image 29: 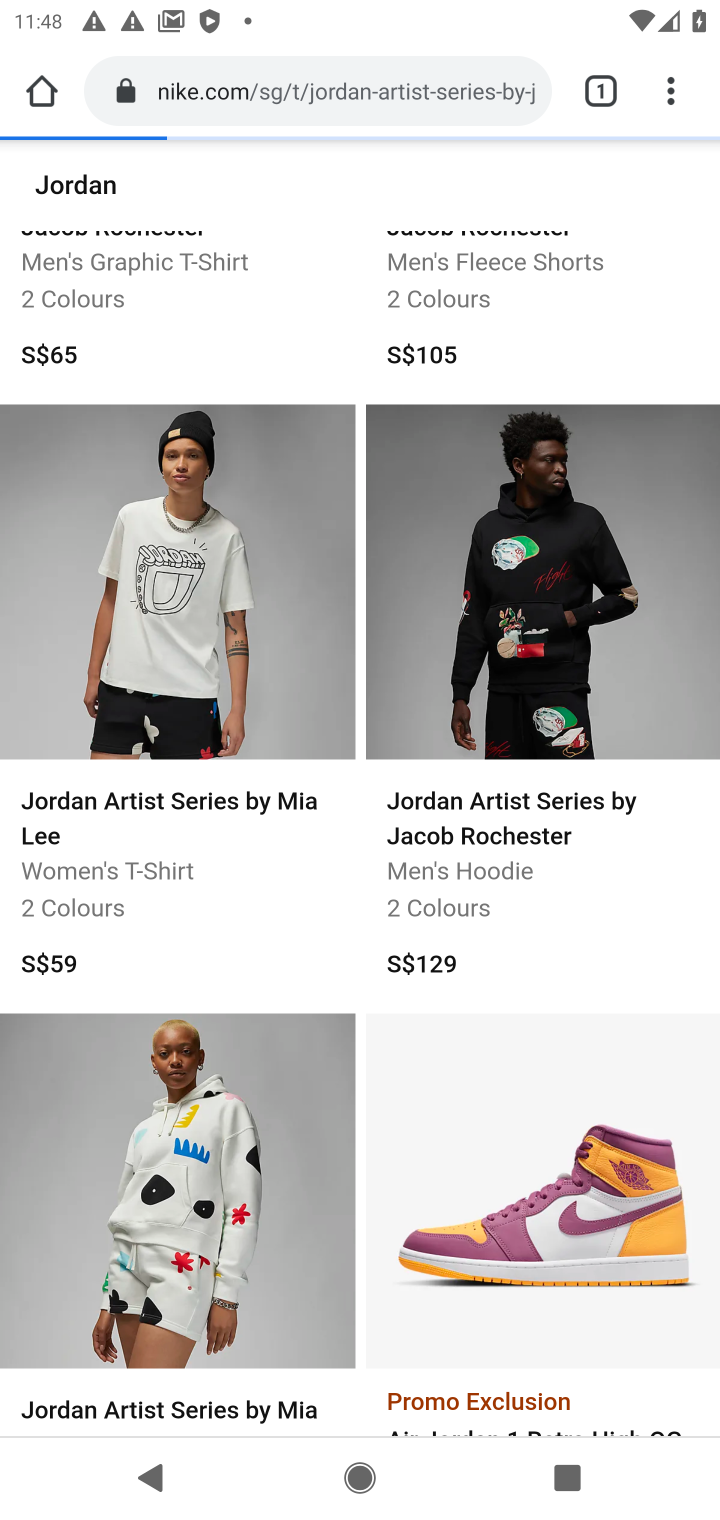
Step 29: drag from (565, 946) to (598, 721)
Your task to perform on an android device: Search for the new Nike Air Jordan 33 on Nike.com Image 30: 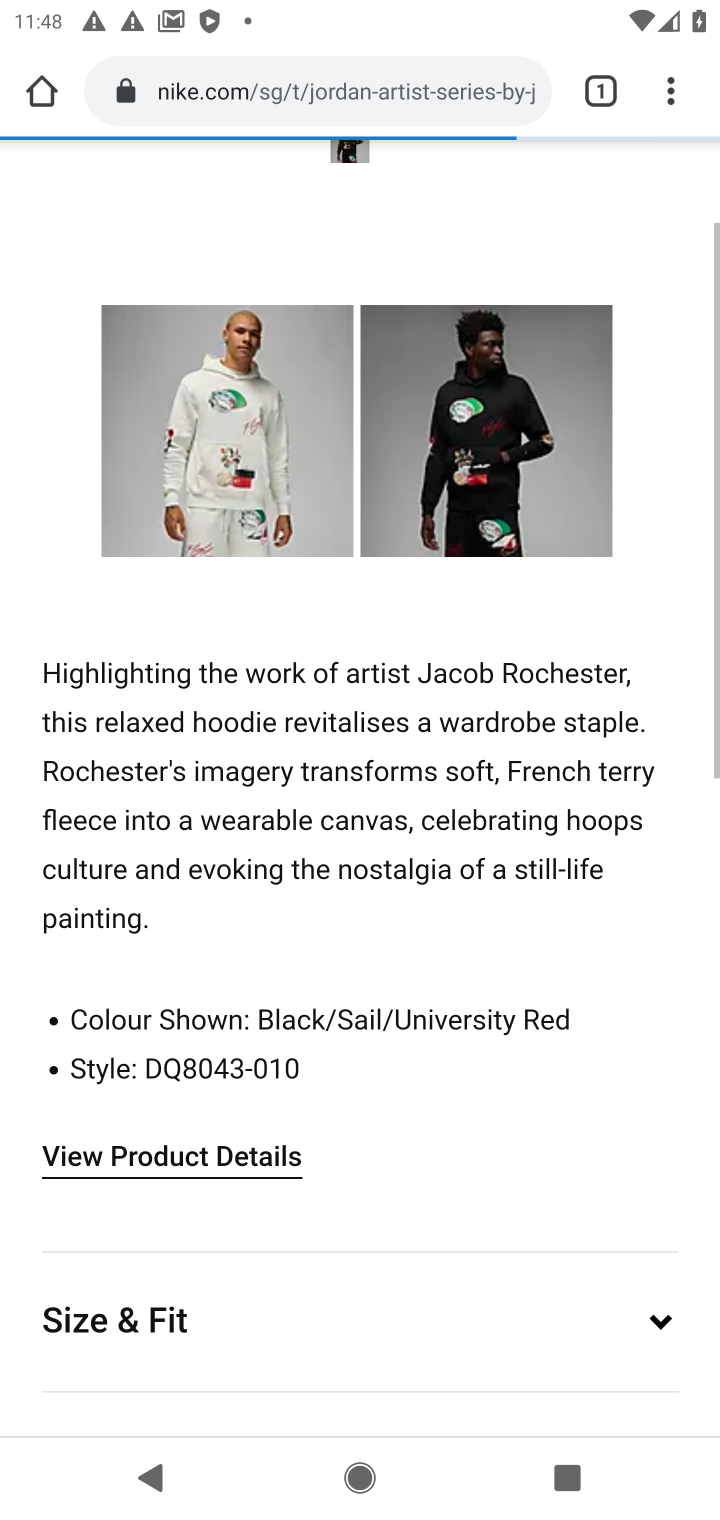
Step 30: drag from (419, 647) to (419, 489)
Your task to perform on an android device: Search for the new Nike Air Jordan 33 on Nike.com Image 31: 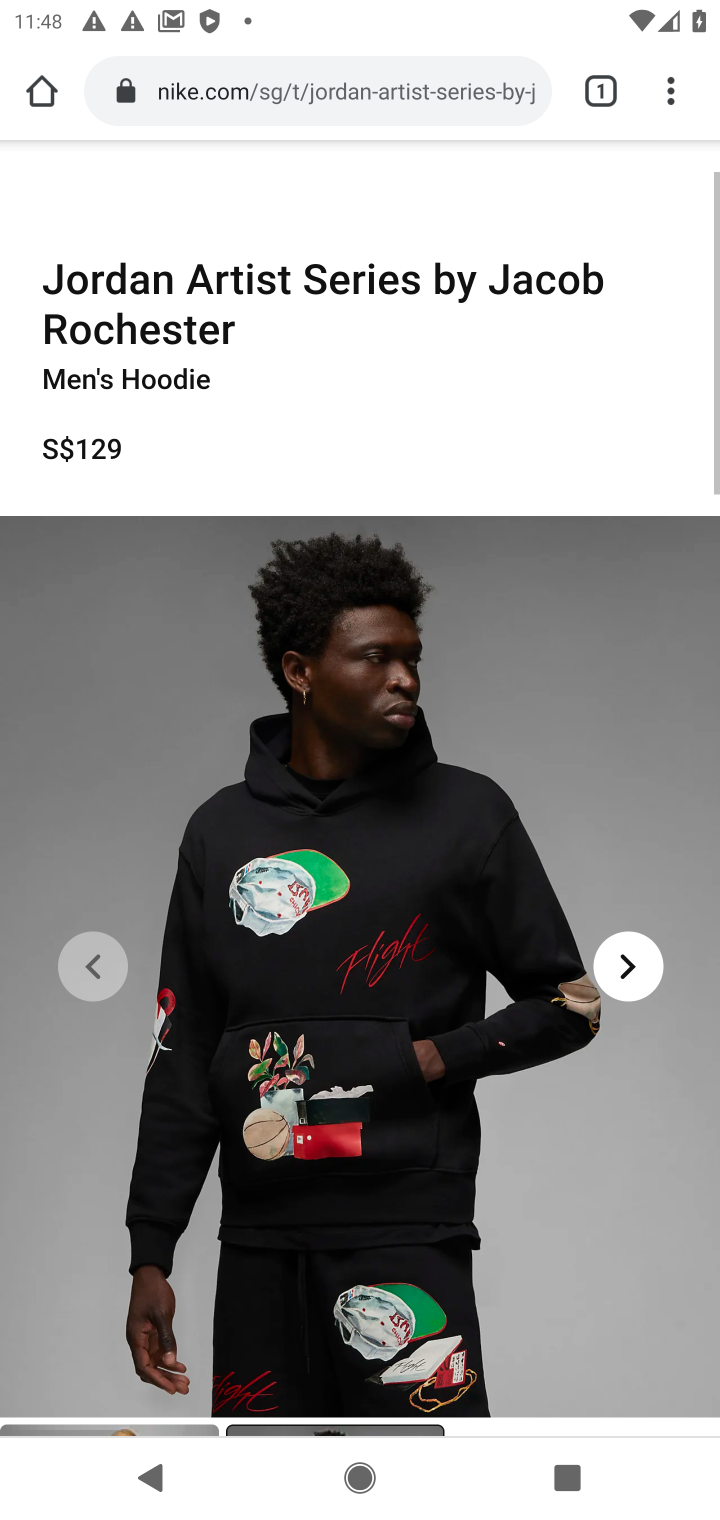
Step 31: drag from (328, 508) to (337, 404)
Your task to perform on an android device: Search for the new Nike Air Jordan 33 on Nike.com Image 32: 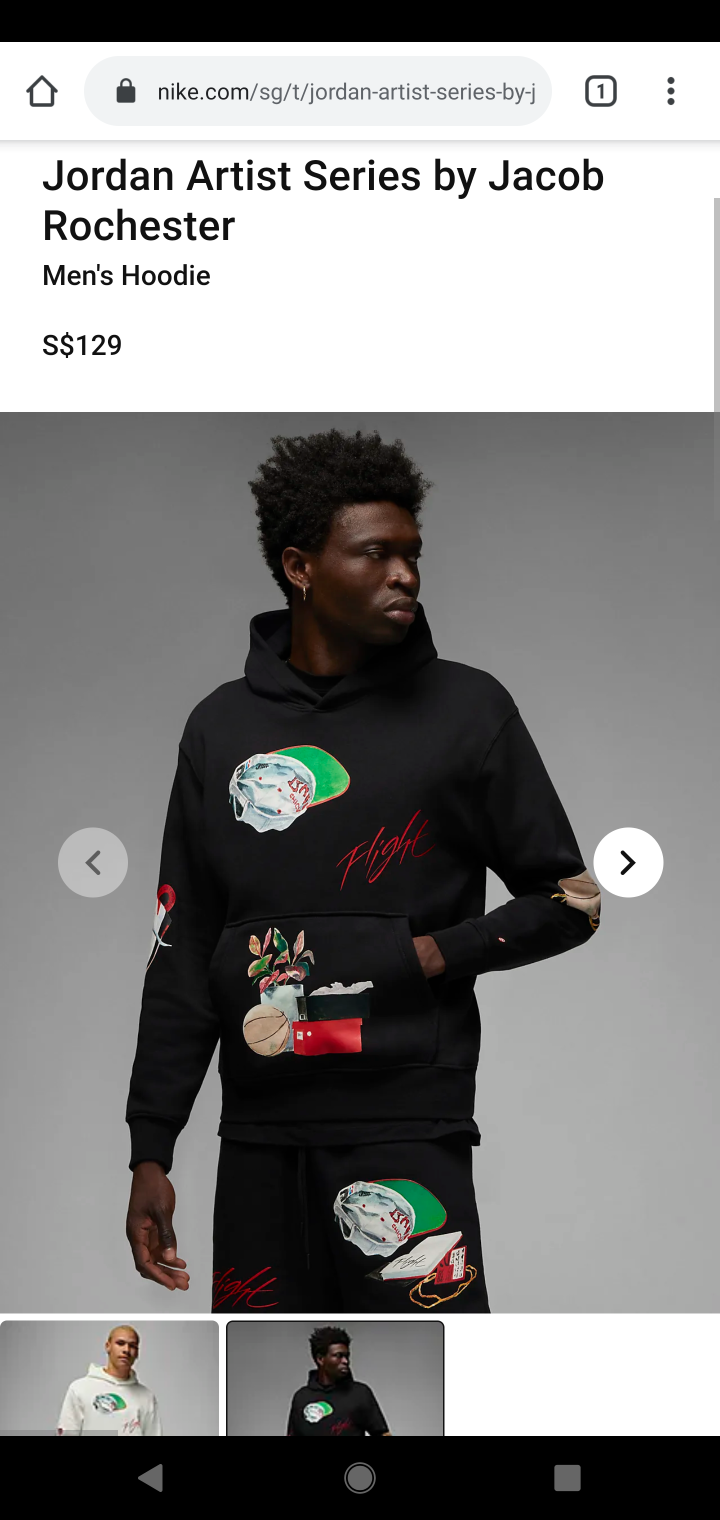
Step 32: drag from (449, 655) to (419, 224)
Your task to perform on an android device: Search for the new Nike Air Jordan 33 on Nike.com Image 33: 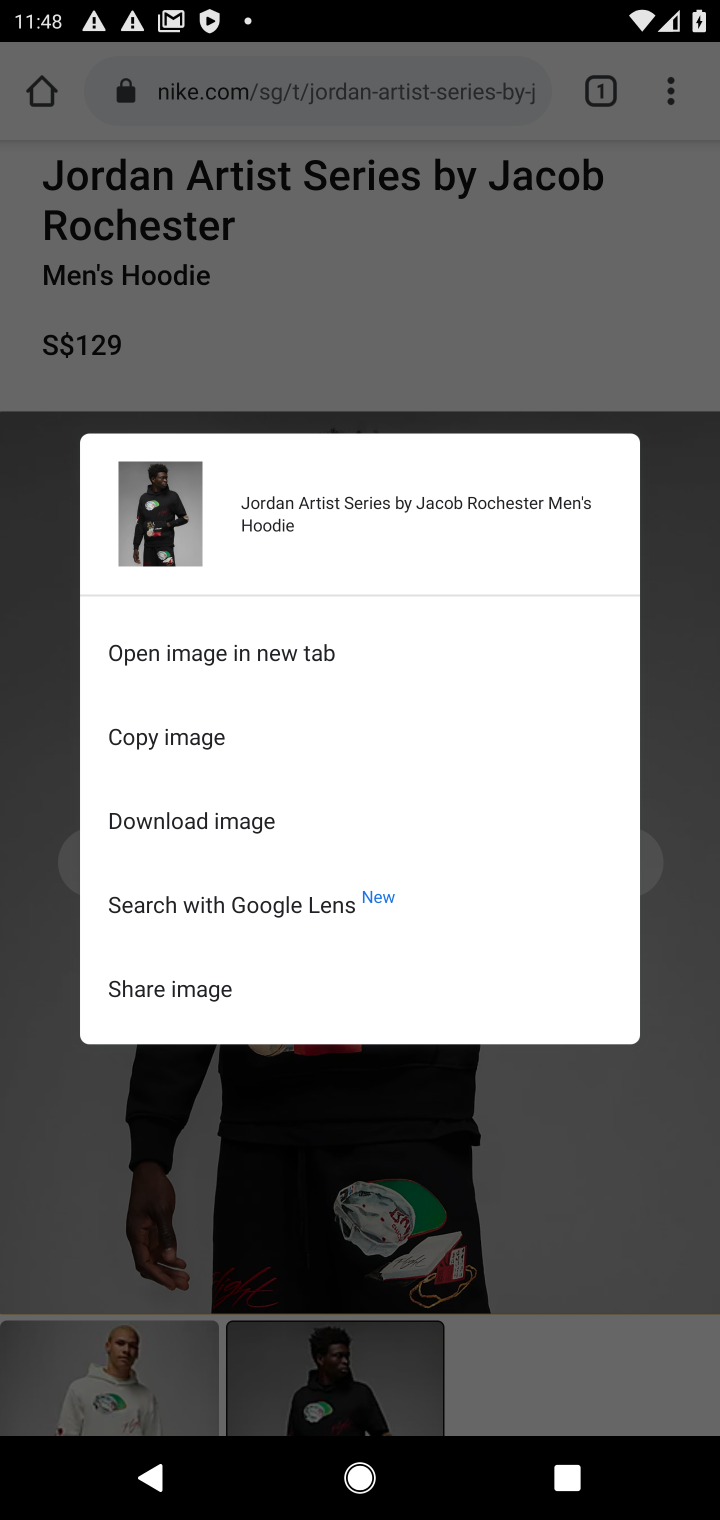
Step 33: drag from (86, 787) to (86, 377)
Your task to perform on an android device: Search for the new Nike Air Jordan 33 on Nike.com Image 34: 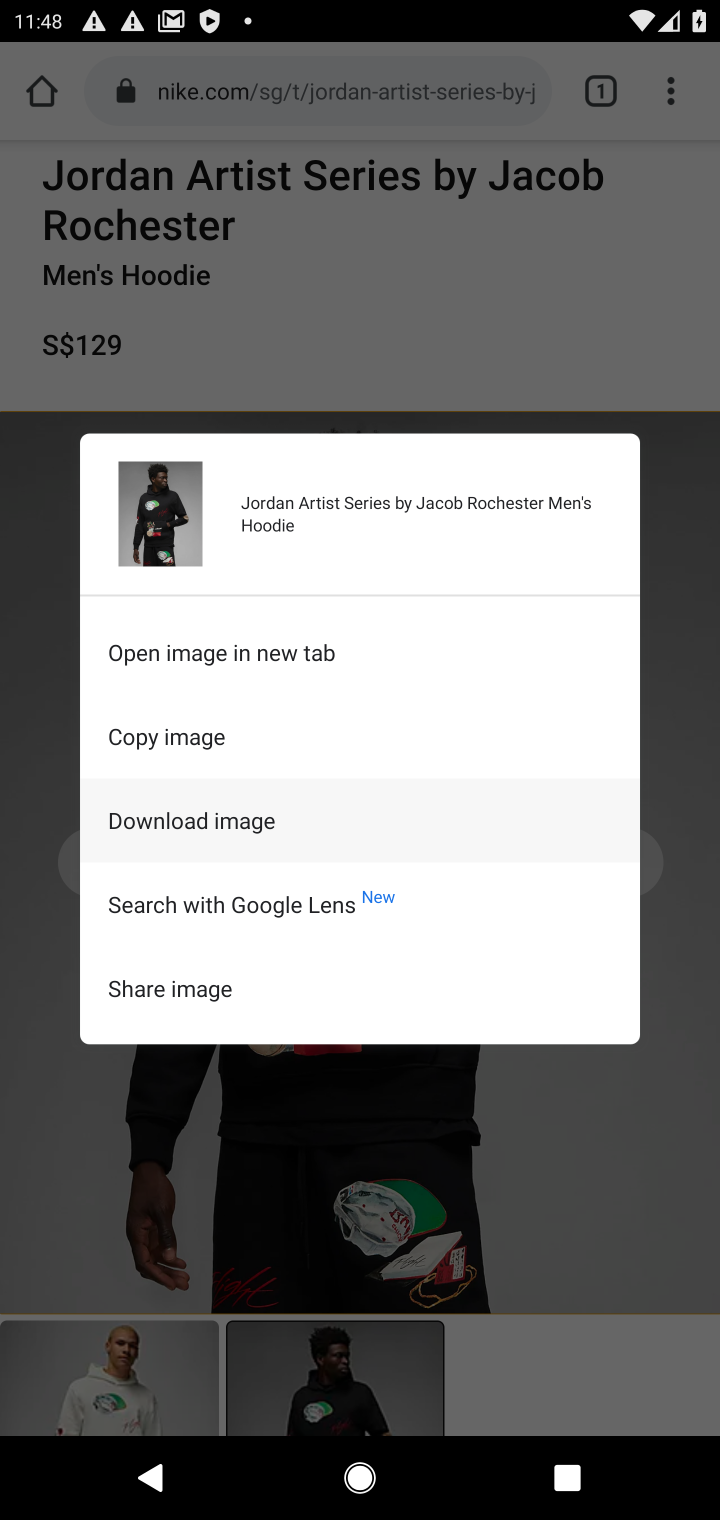
Step 34: click (711, 690)
Your task to perform on an android device: Search for the new Nike Air Jordan 33 on Nike.com Image 35: 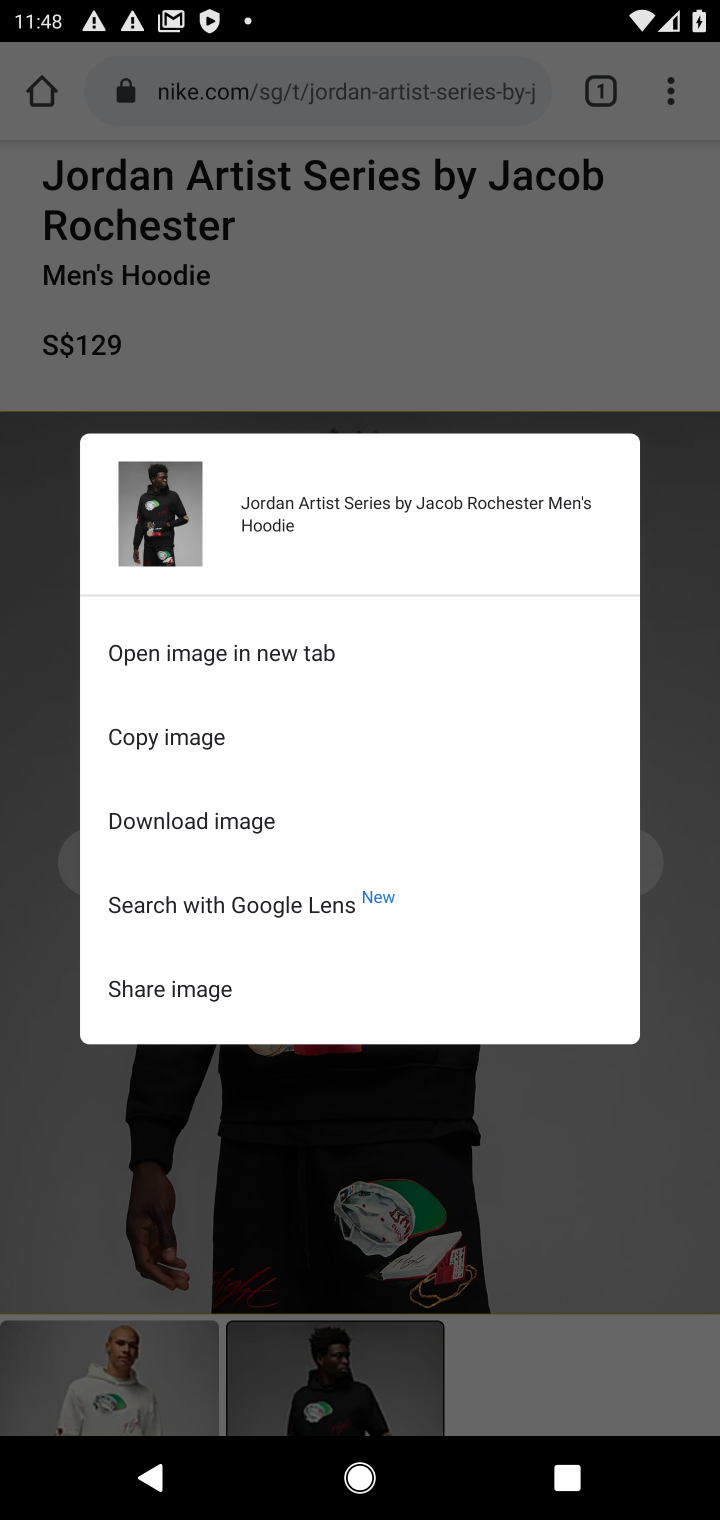
Step 35: task complete